Your task to perform on an android device: open app "Firefox Browser" (install if not already installed) Image 0: 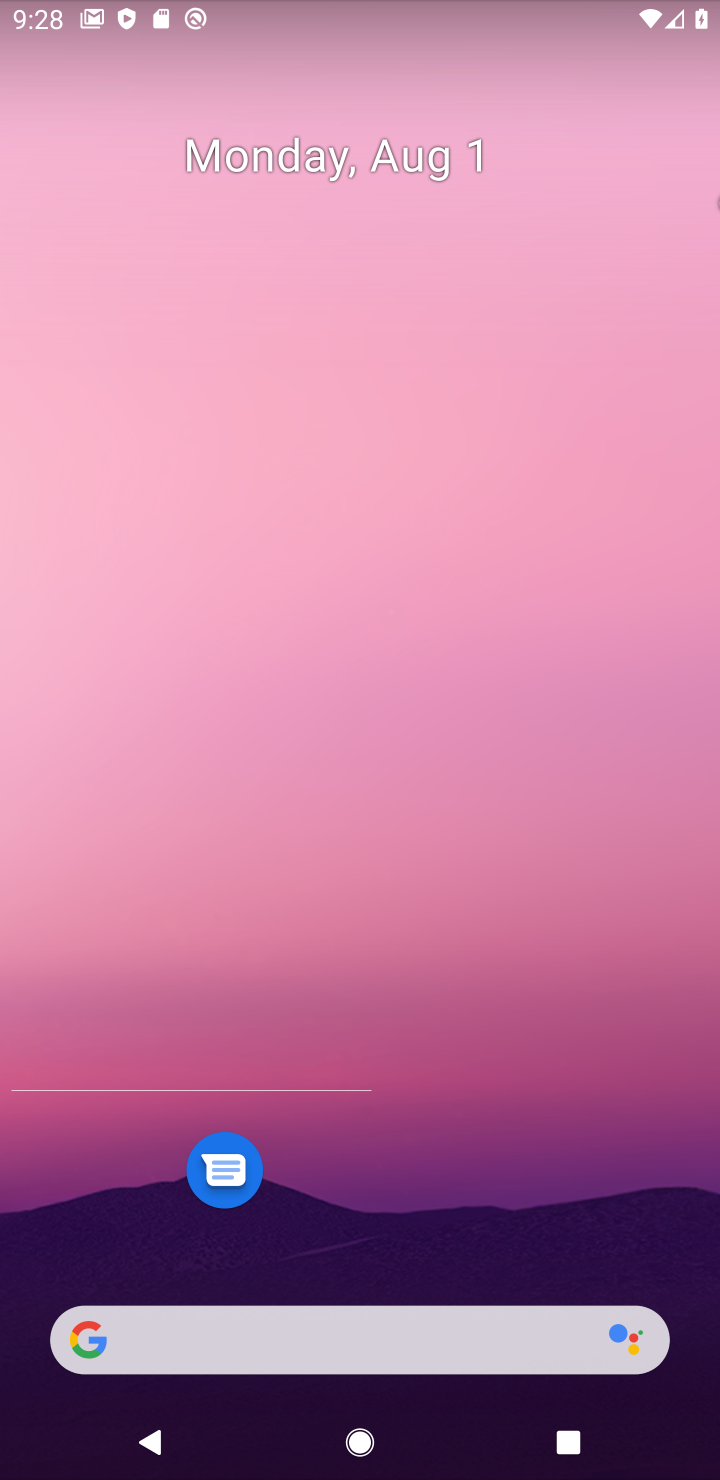
Step 0: press back button
Your task to perform on an android device: open app "Firefox Browser" (install if not already installed) Image 1: 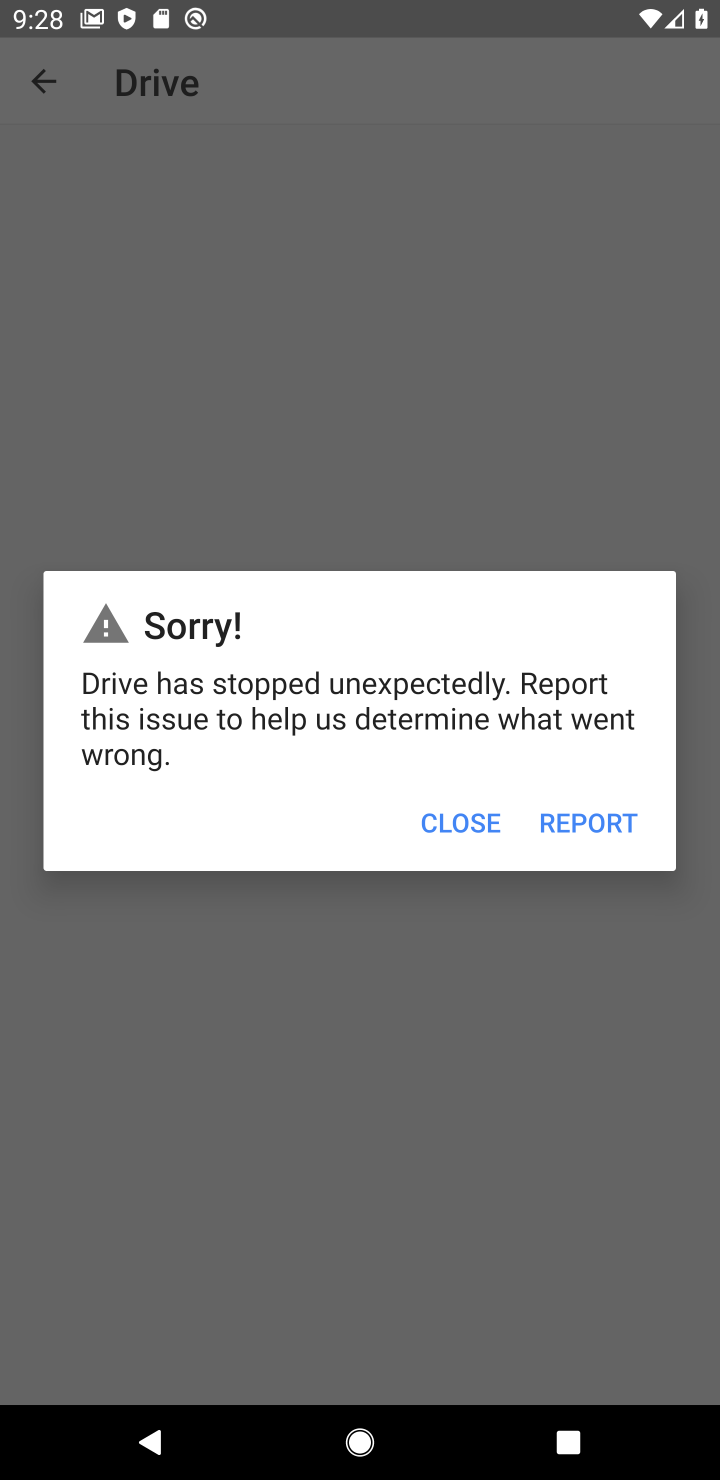
Step 1: drag from (482, 1089) to (317, 53)
Your task to perform on an android device: open app "Firefox Browser" (install if not already installed) Image 2: 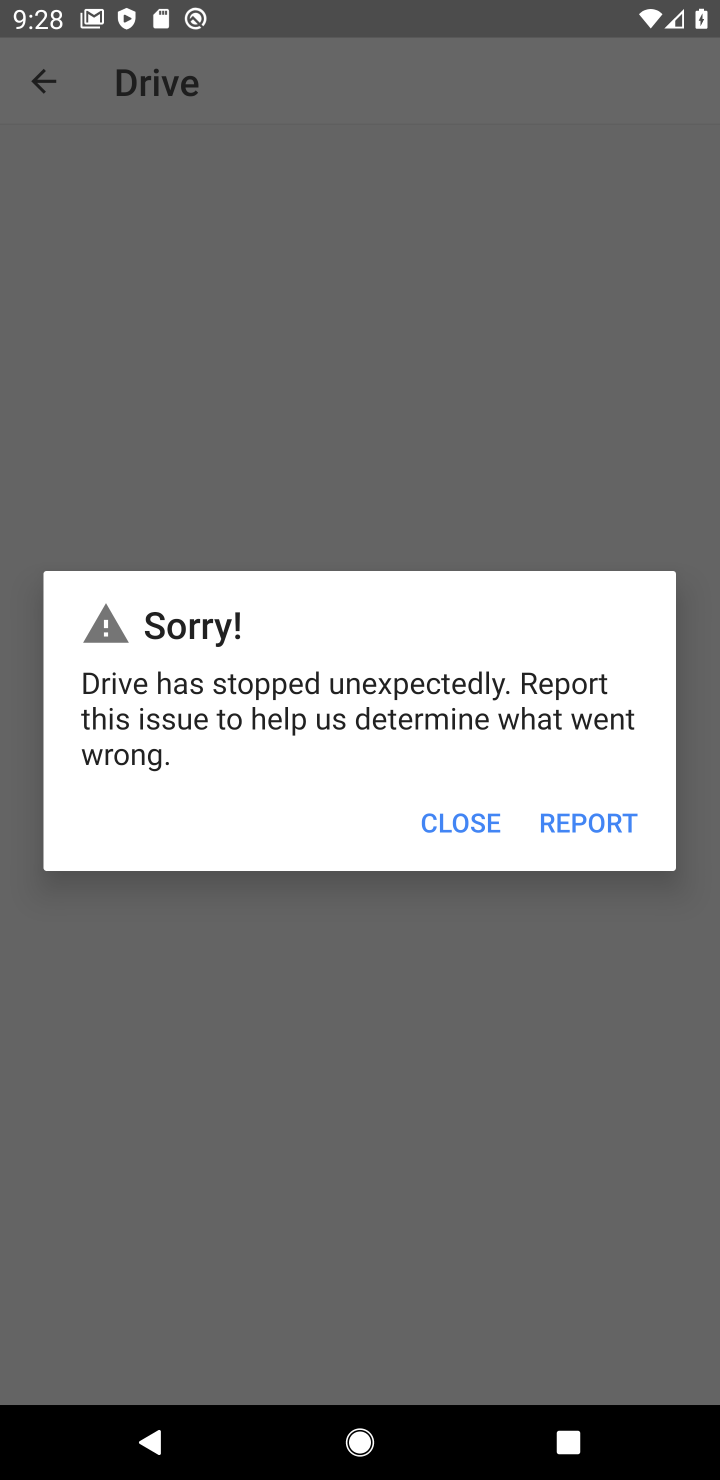
Step 2: drag from (473, 888) to (177, 317)
Your task to perform on an android device: open app "Firefox Browser" (install if not already installed) Image 3: 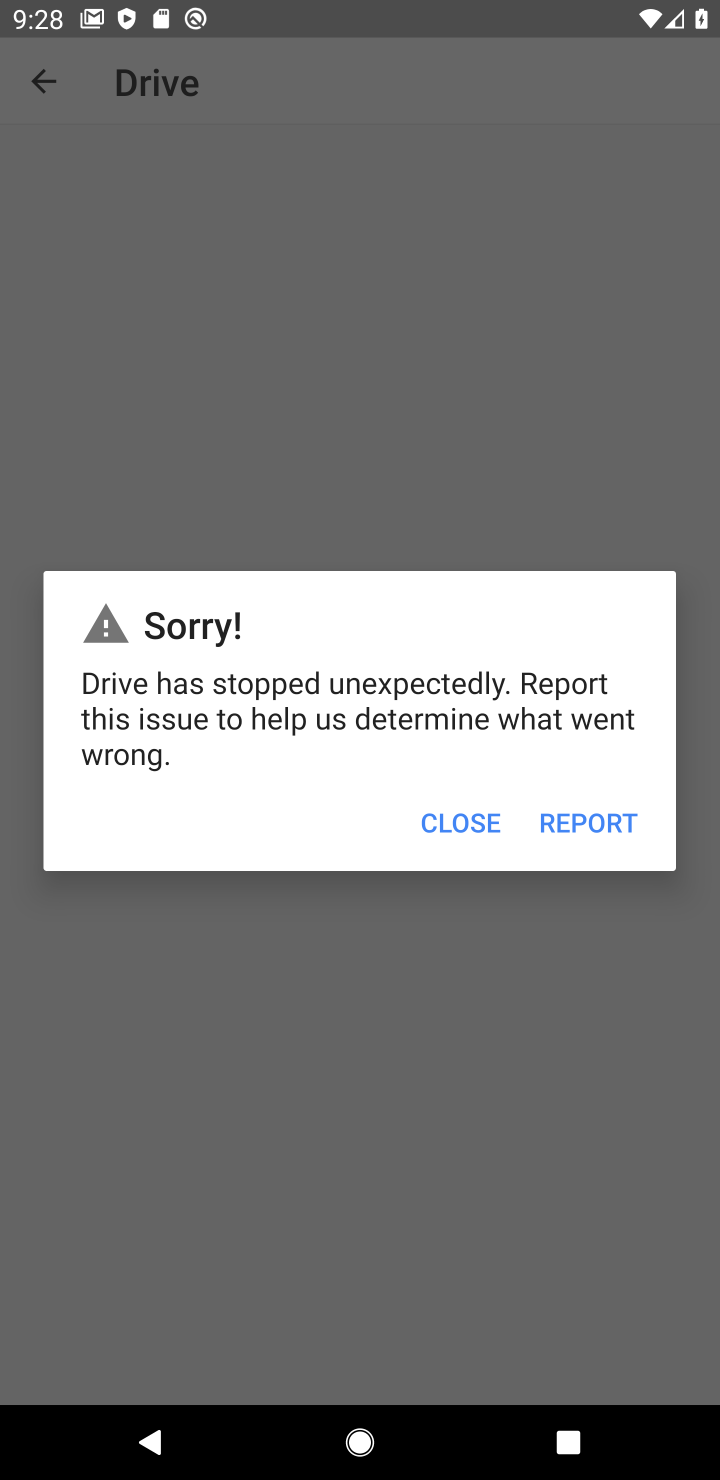
Step 3: drag from (404, 714) to (417, 117)
Your task to perform on an android device: open app "Firefox Browser" (install if not already installed) Image 4: 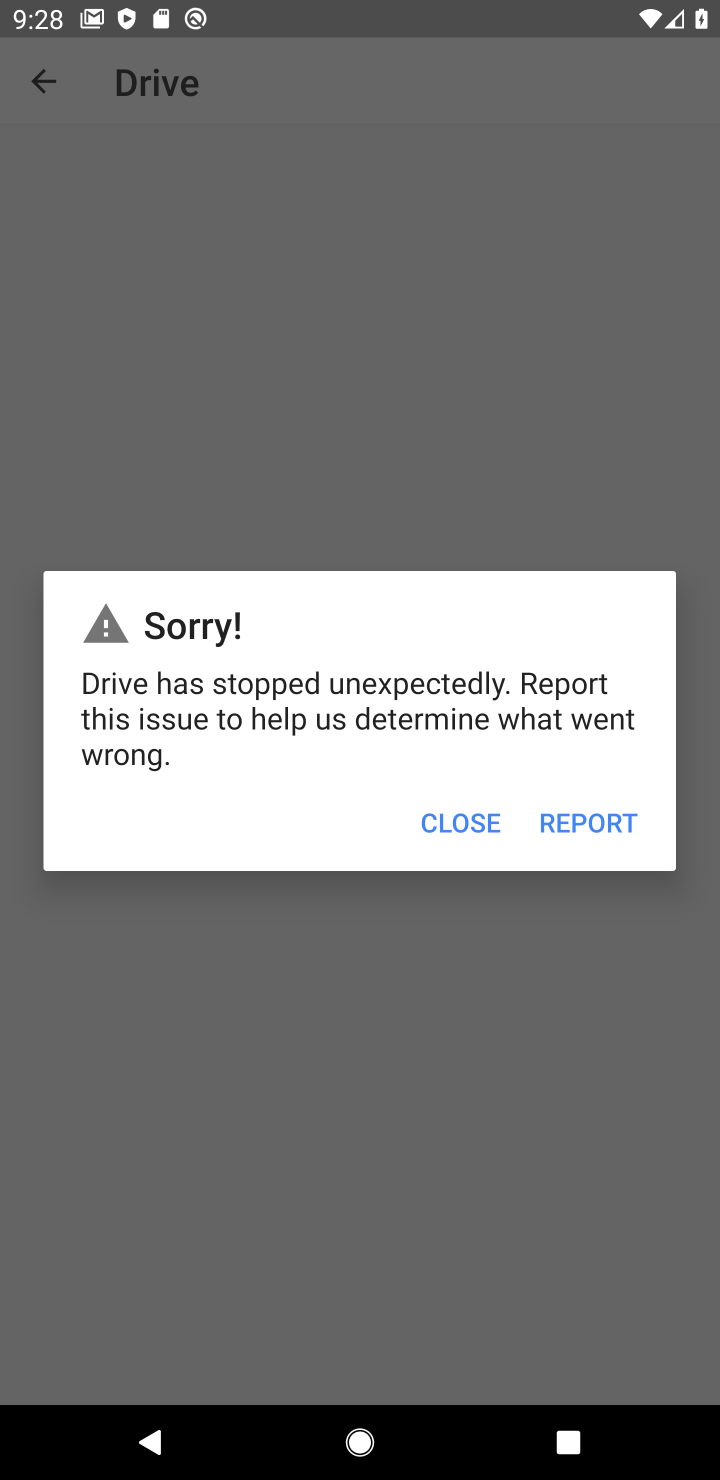
Step 4: click (245, 128)
Your task to perform on an android device: open app "Firefox Browser" (install if not already installed) Image 5: 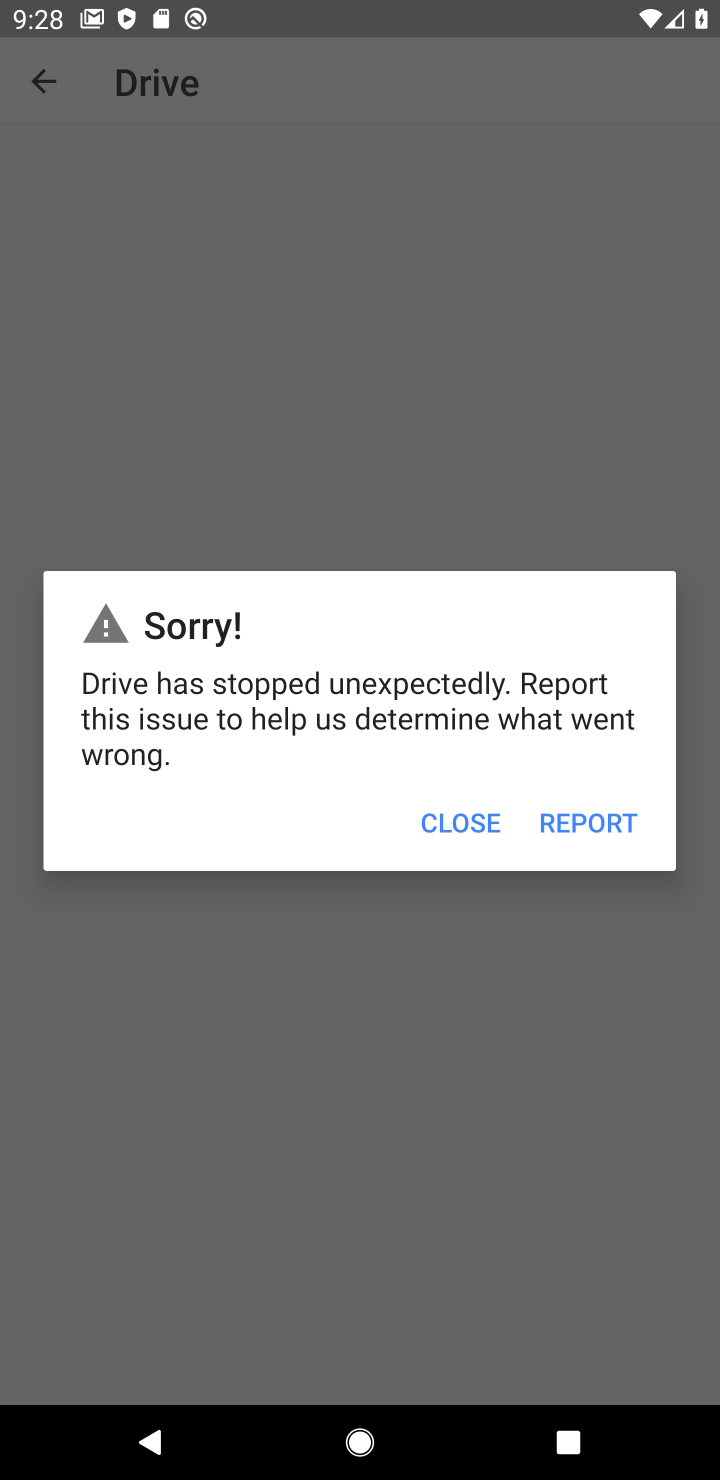
Step 5: click (45, 91)
Your task to perform on an android device: open app "Firefox Browser" (install if not already installed) Image 6: 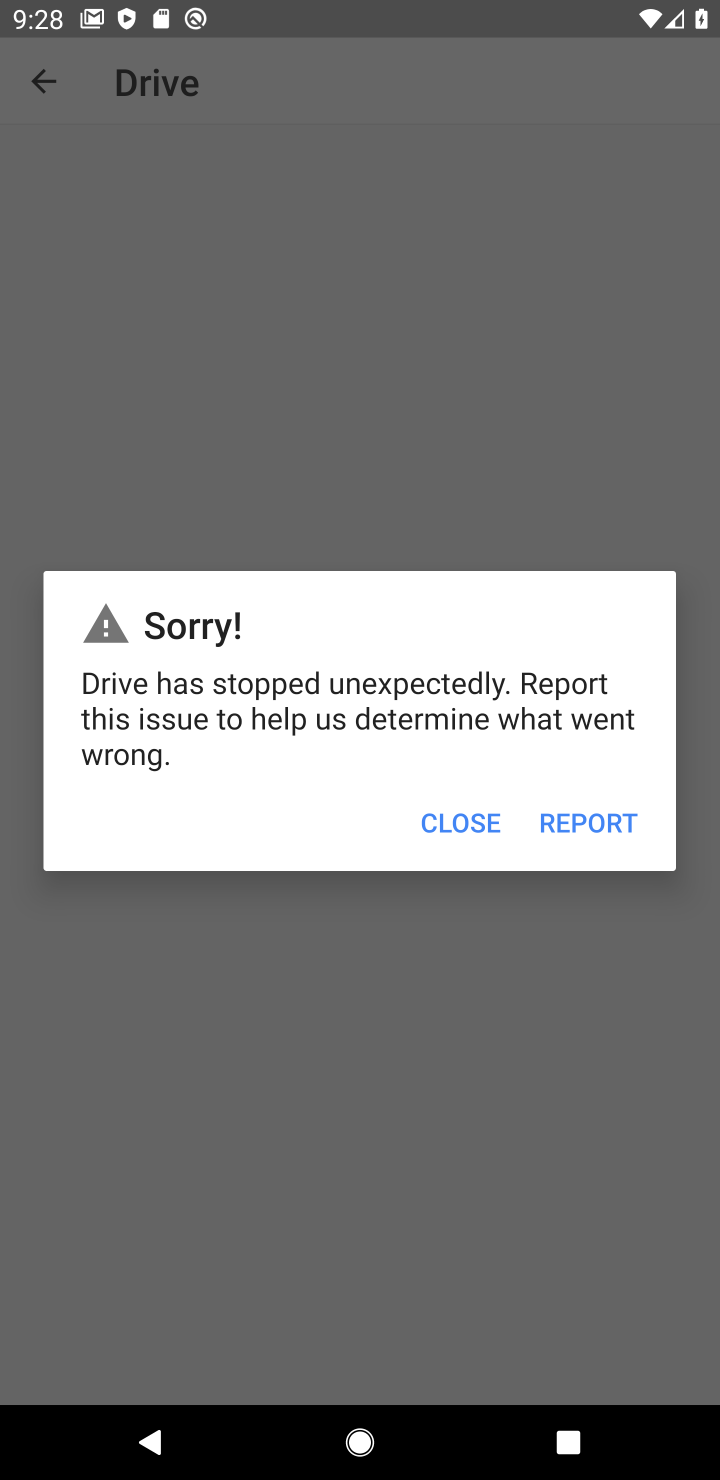
Step 6: click (42, 89)
Your task to perform on an android device: open app "Firefox Browser" (install if not already installed) Image 7: 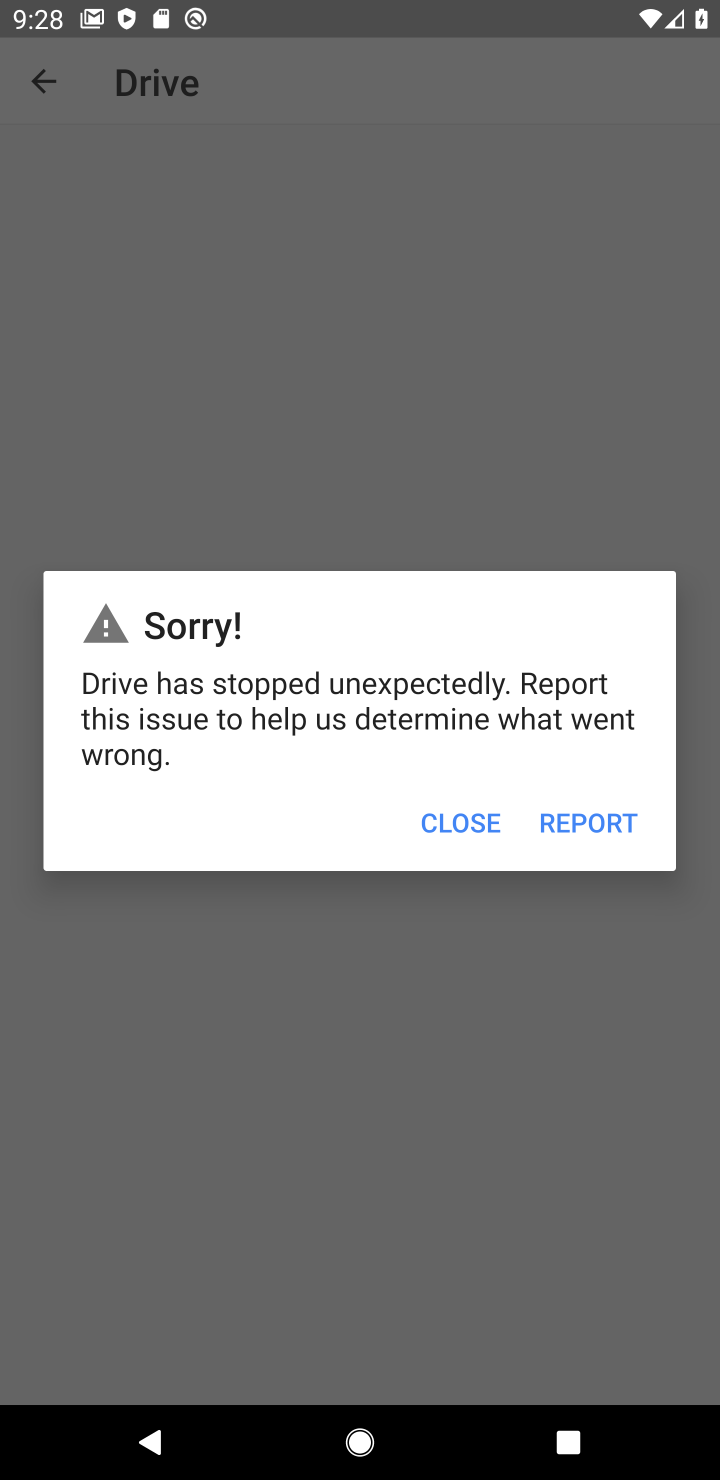
Step 7: click (43, 99)
Your task to perform on an android device: open app "Firefox Browser" (install if not already installed) Image 8: 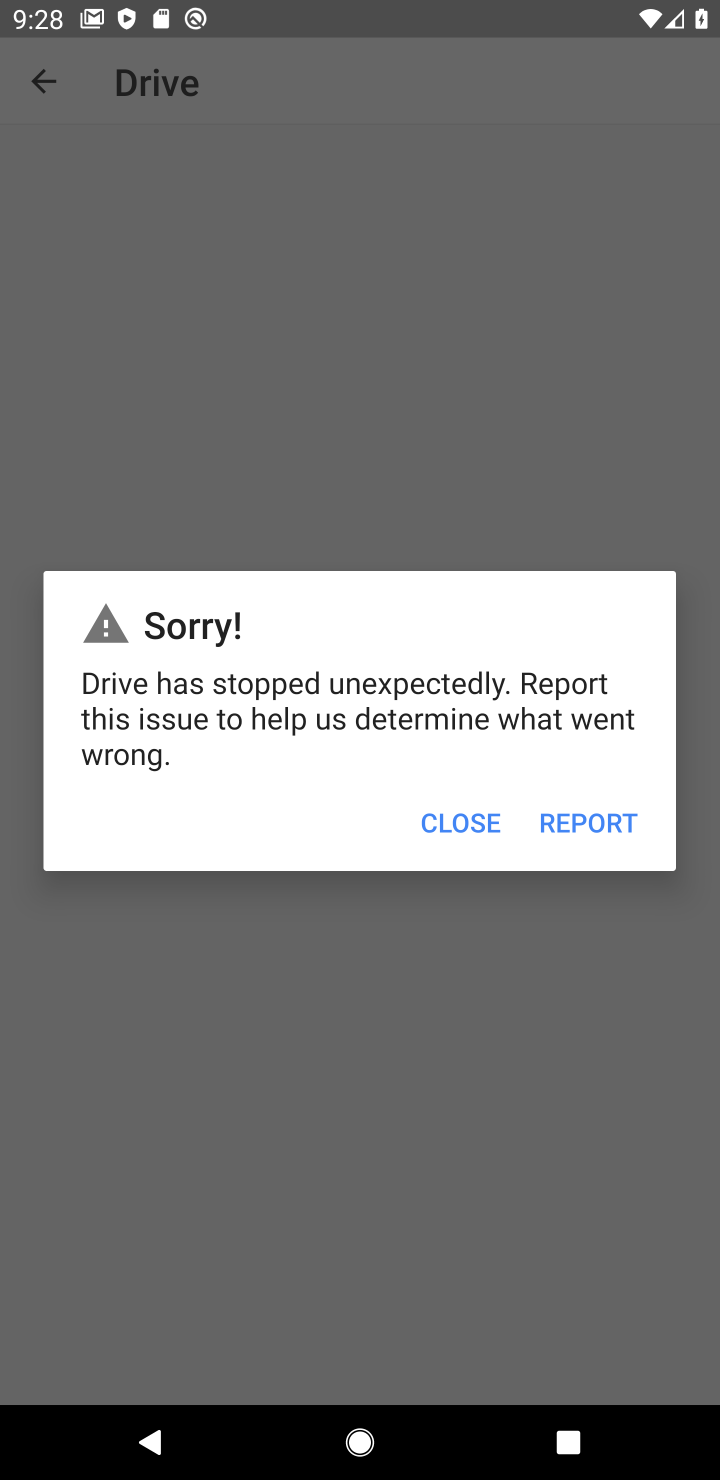
Step 8: click (43, 93)
Your task to perform on an android device: open app "Firefox Browser" (install if not already installed) Image 9: 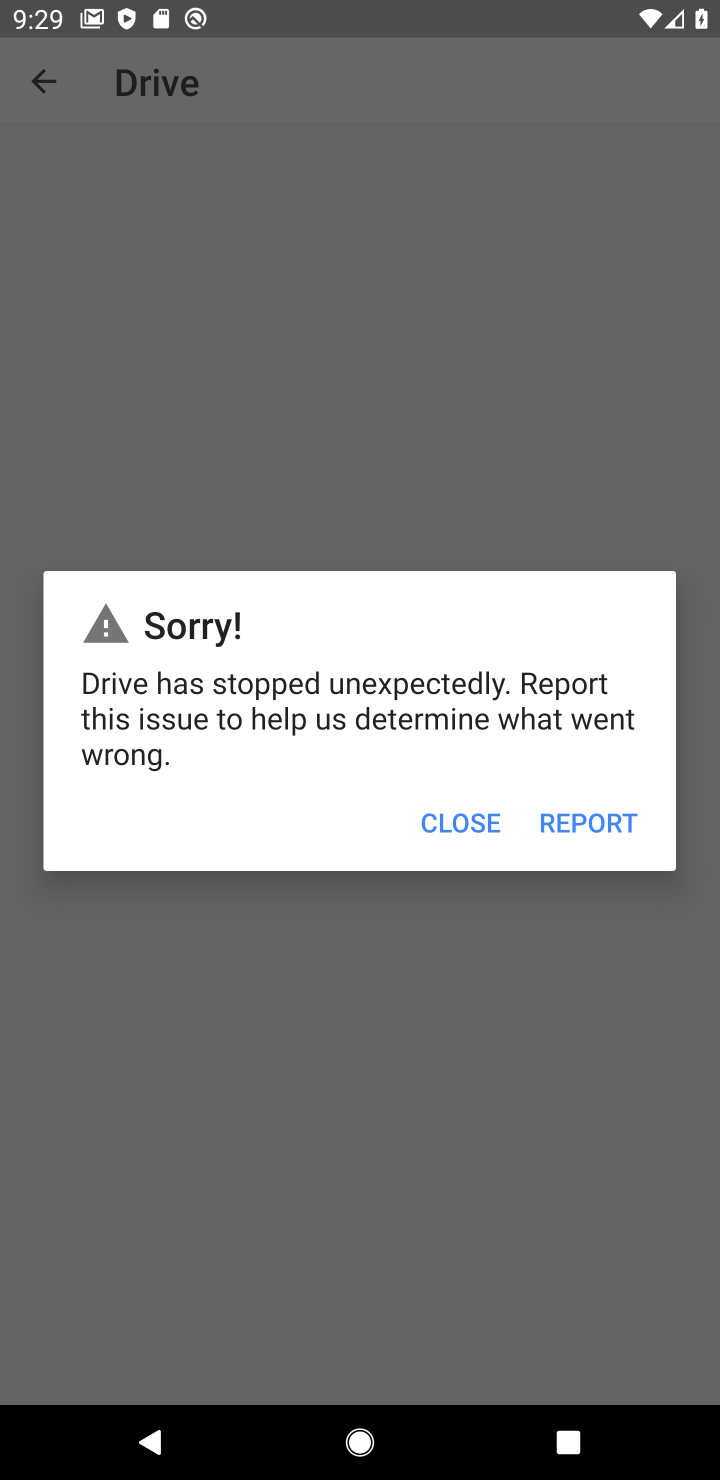
Step 9: click (50, 104)
Your task to perform on an android device: open app "Firefox Browser" (install if not already installed) Image 10: 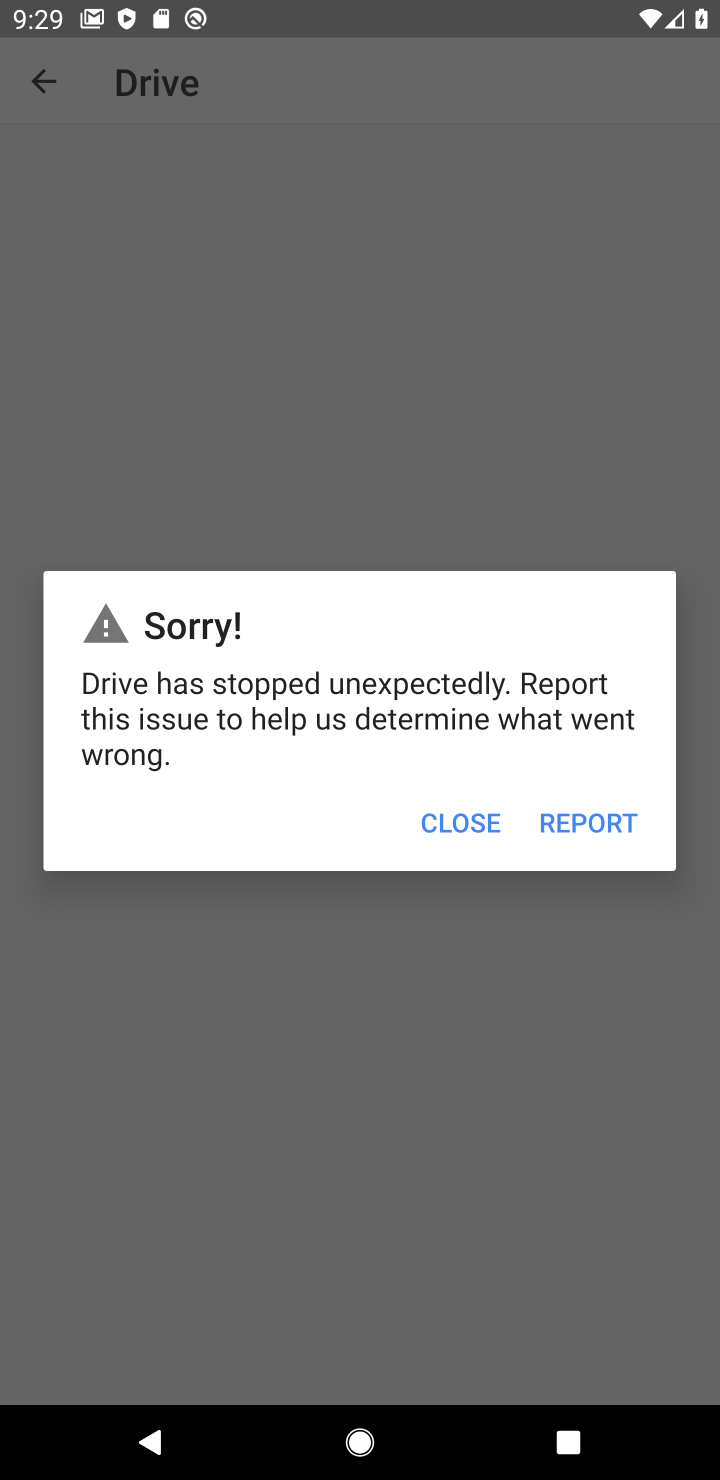
Step 10: click (309, 464)
Your task to perform on an android device: open app "Firefox Browser" (install if not already installed) Image 11: 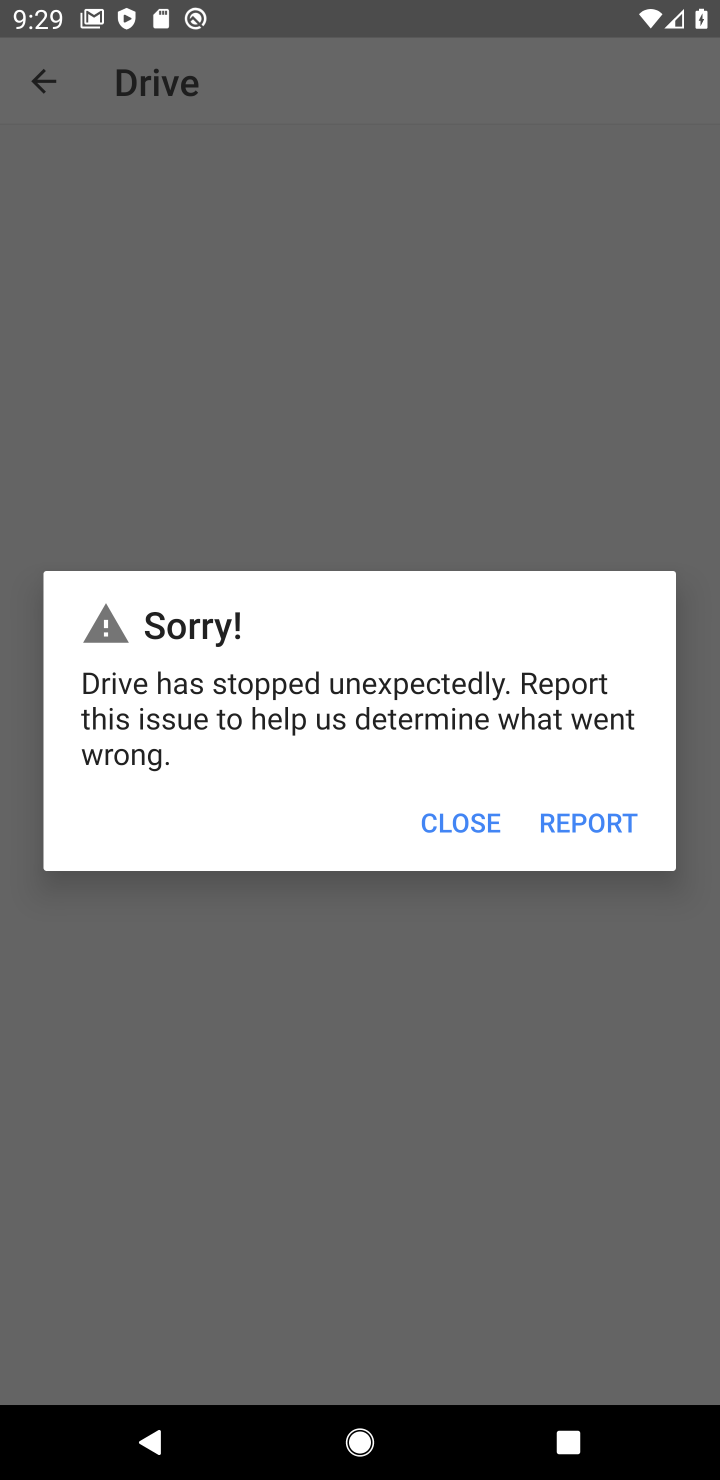
Step 11: click (45, 106)
Your task to perform on an android device: open app "Firefox Browser" (install if not already installed) Image 12: 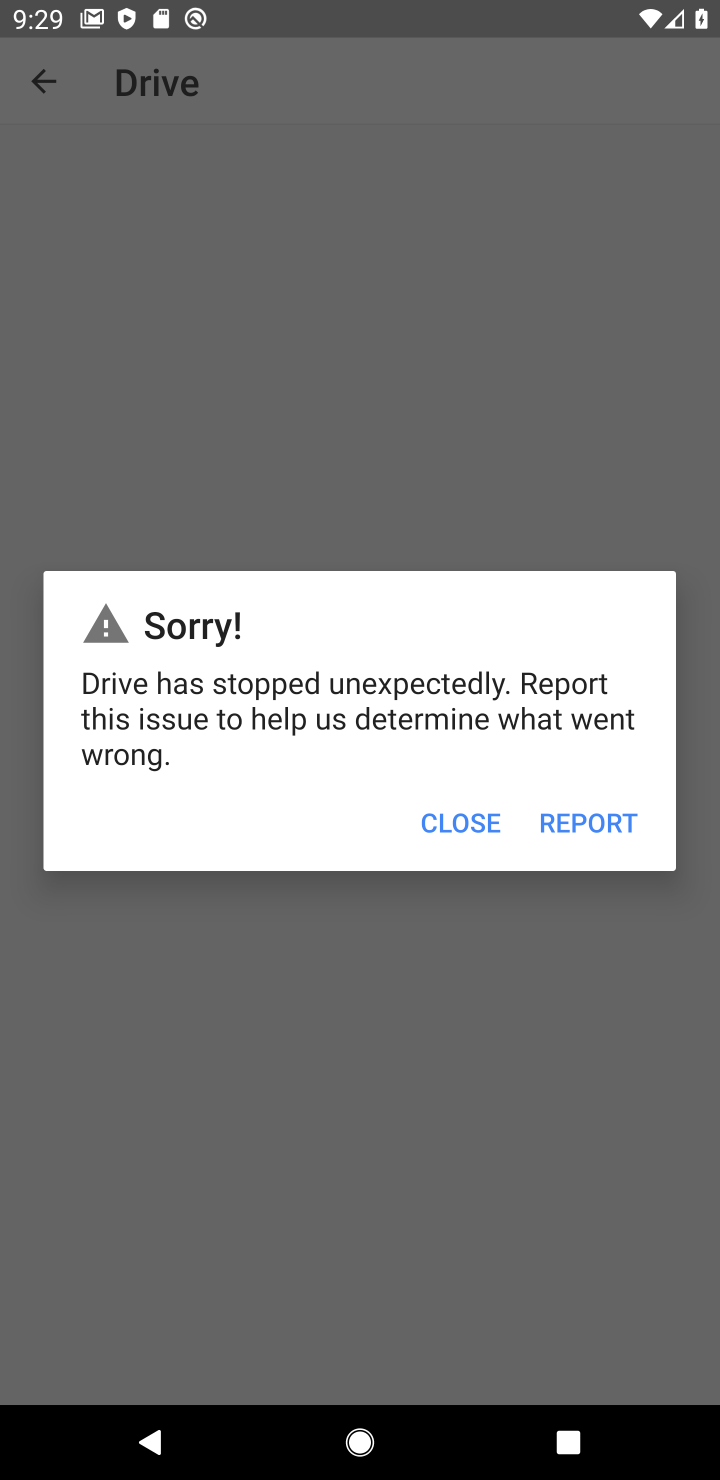
Step 12: click (273, 249)
Your task to perform on an android device: open app "Firefox Browser" (install if not already installed) Image 13: 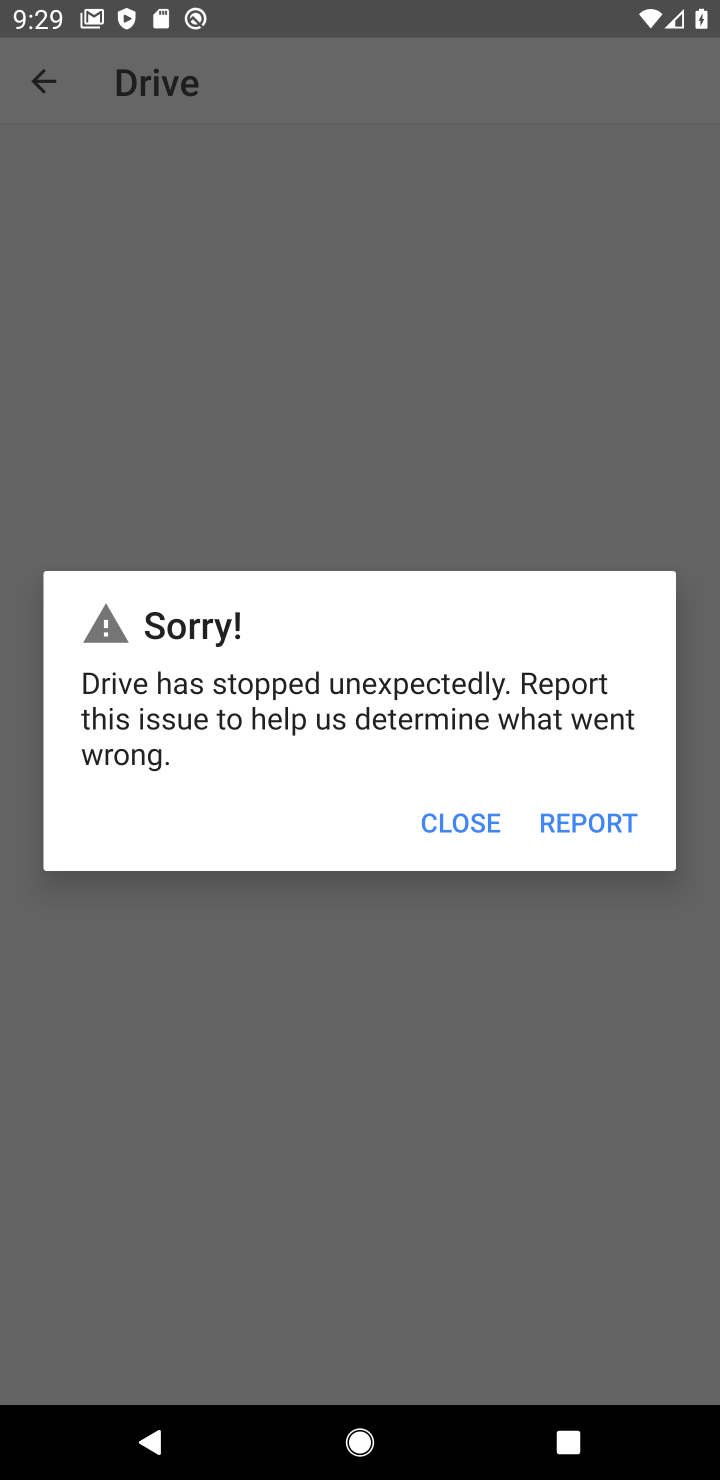
Step 13: press back button
Your task to perform on an android device: open app "Firefox Browser" (install if not already installed) Image 14: 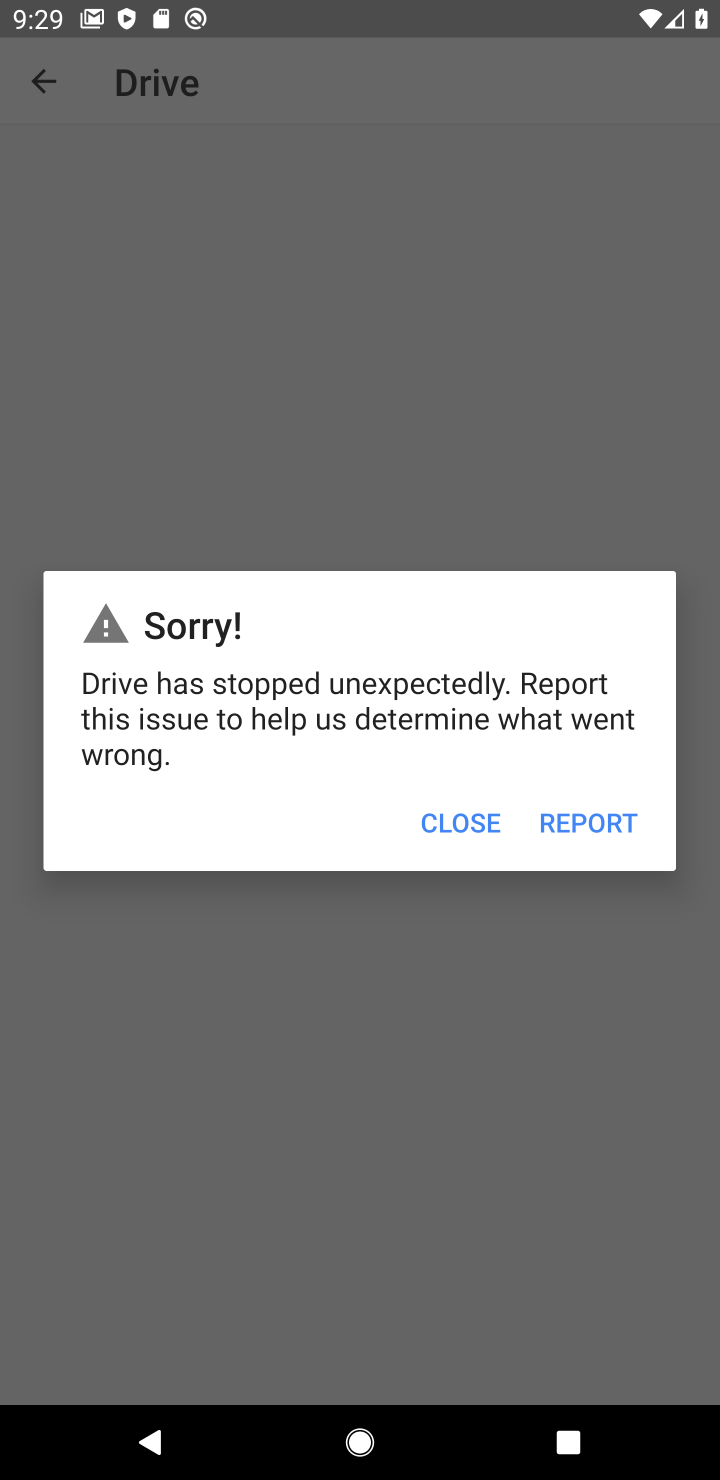
Step 14: press back button
Your task to perform on an android device: open app "Firefox Browser" (install if not already installed) Image 15: 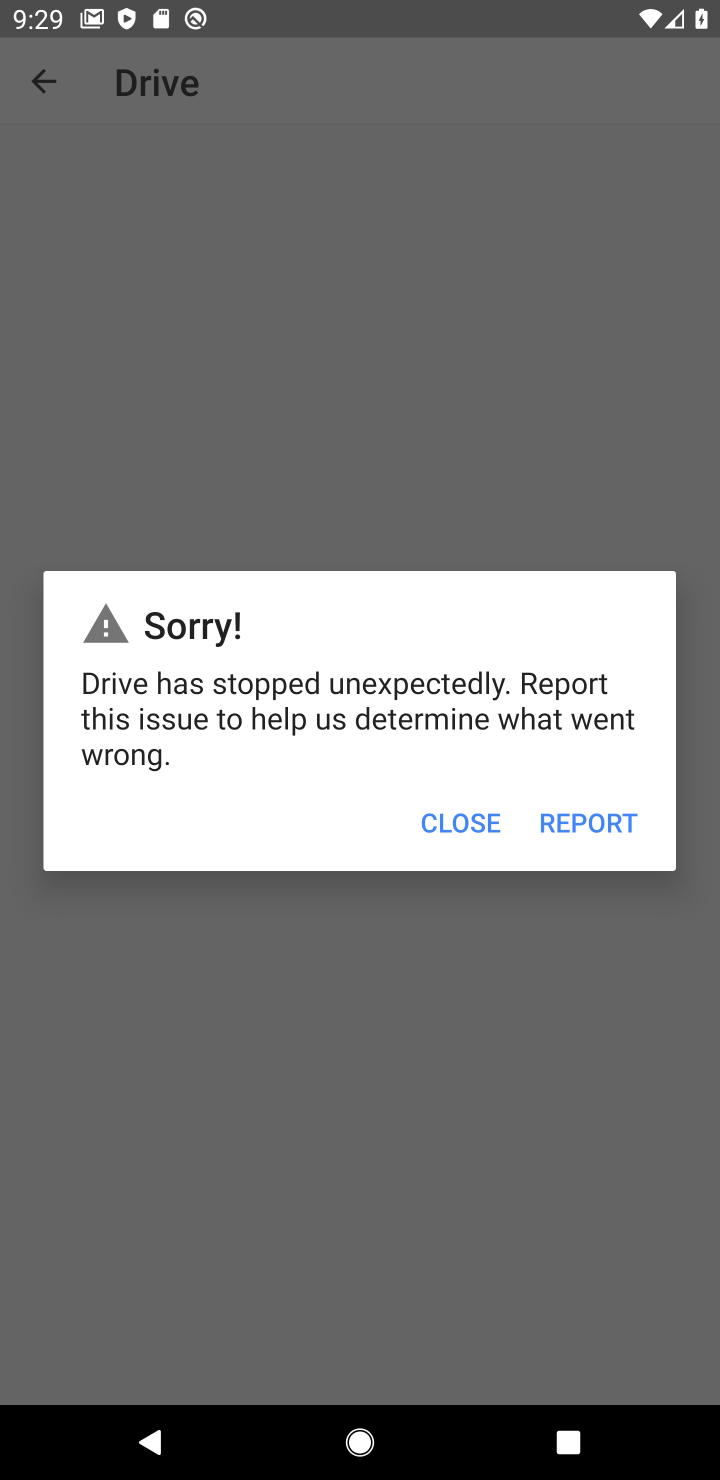
Step 15: press home button
Your task to perform on an android device: open app "Firefox Browser" (install if not already installed) Image 16: 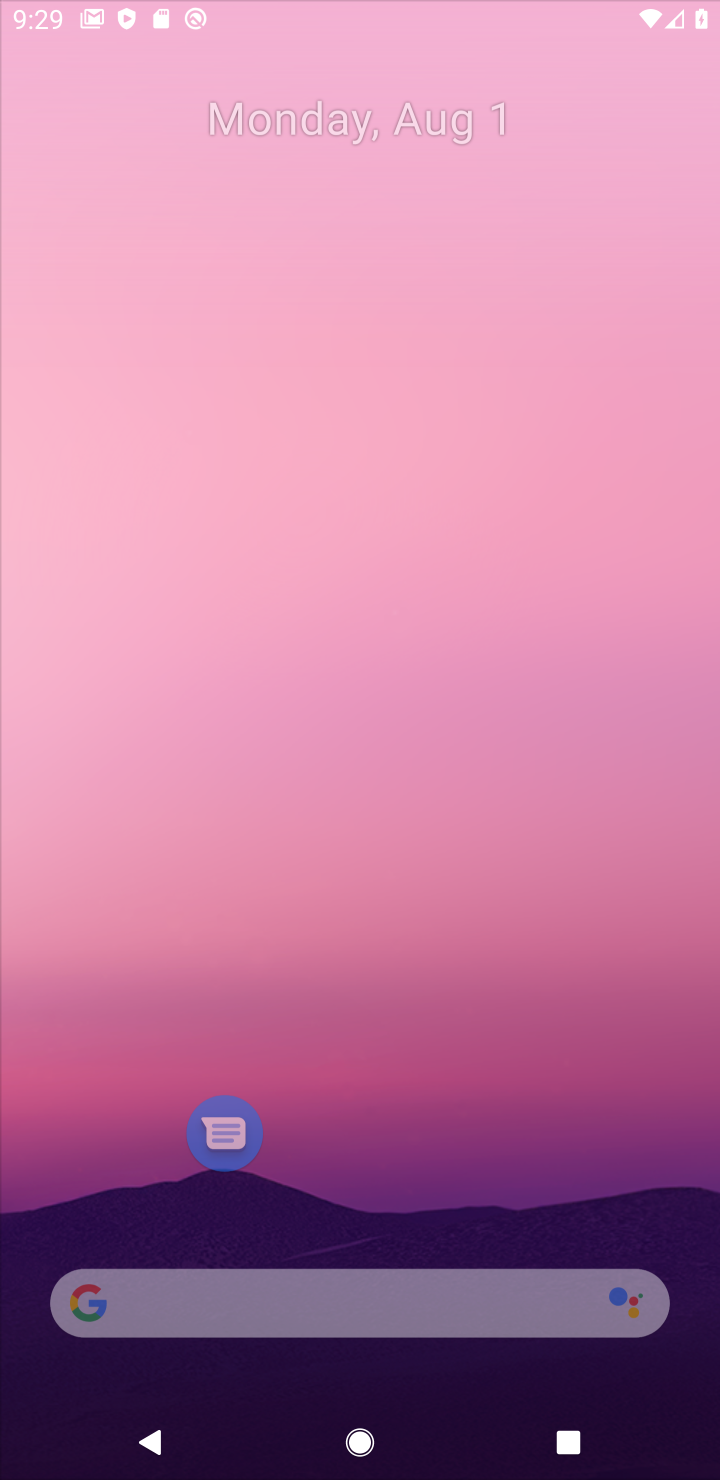
Step 16: drag from (445, 824) to (292, 256)
Your task to perform on an android device: open app "Firefox Browser" (install if not already installed) Image 17: 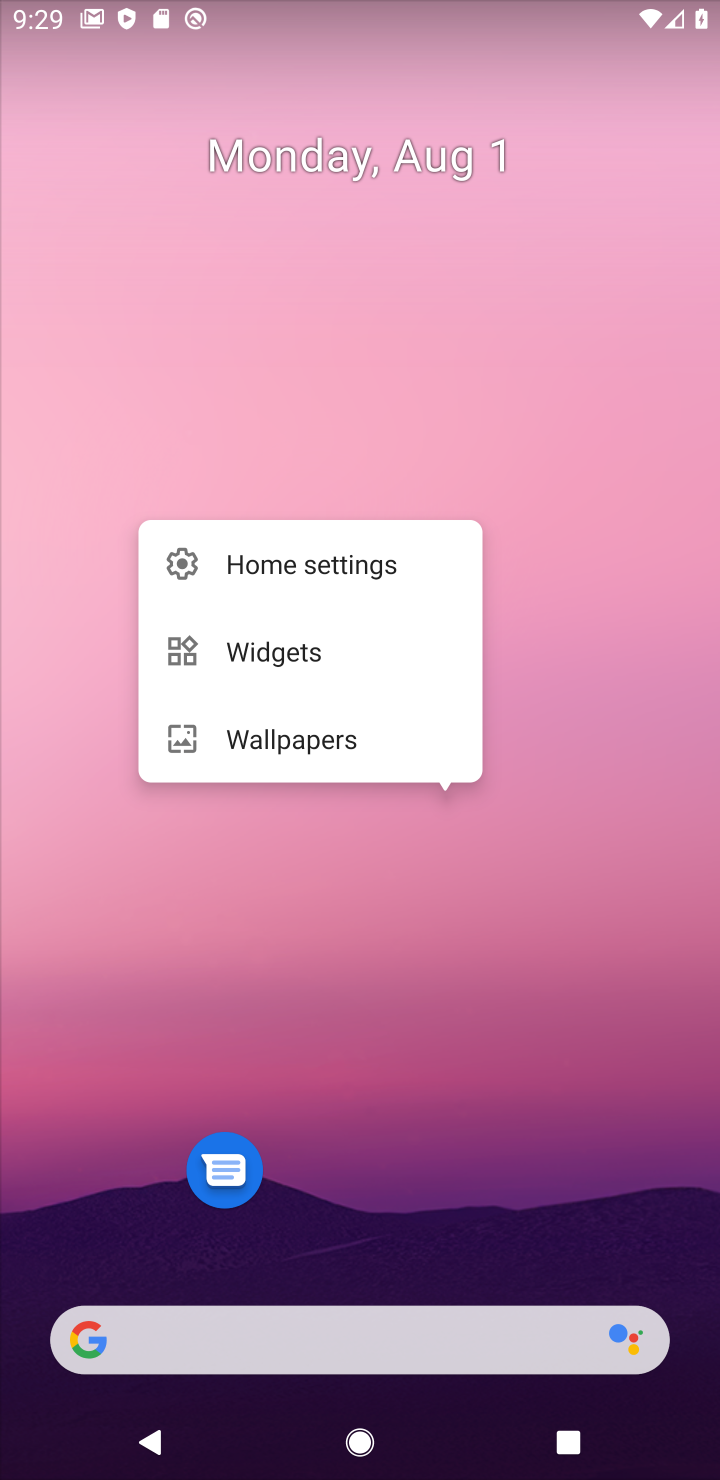
Step 17: drag from (315, 1042) to (362, 36)
Your task to perform on an android device: open app "Firefox Browser" (install if not already installed) Image 18: 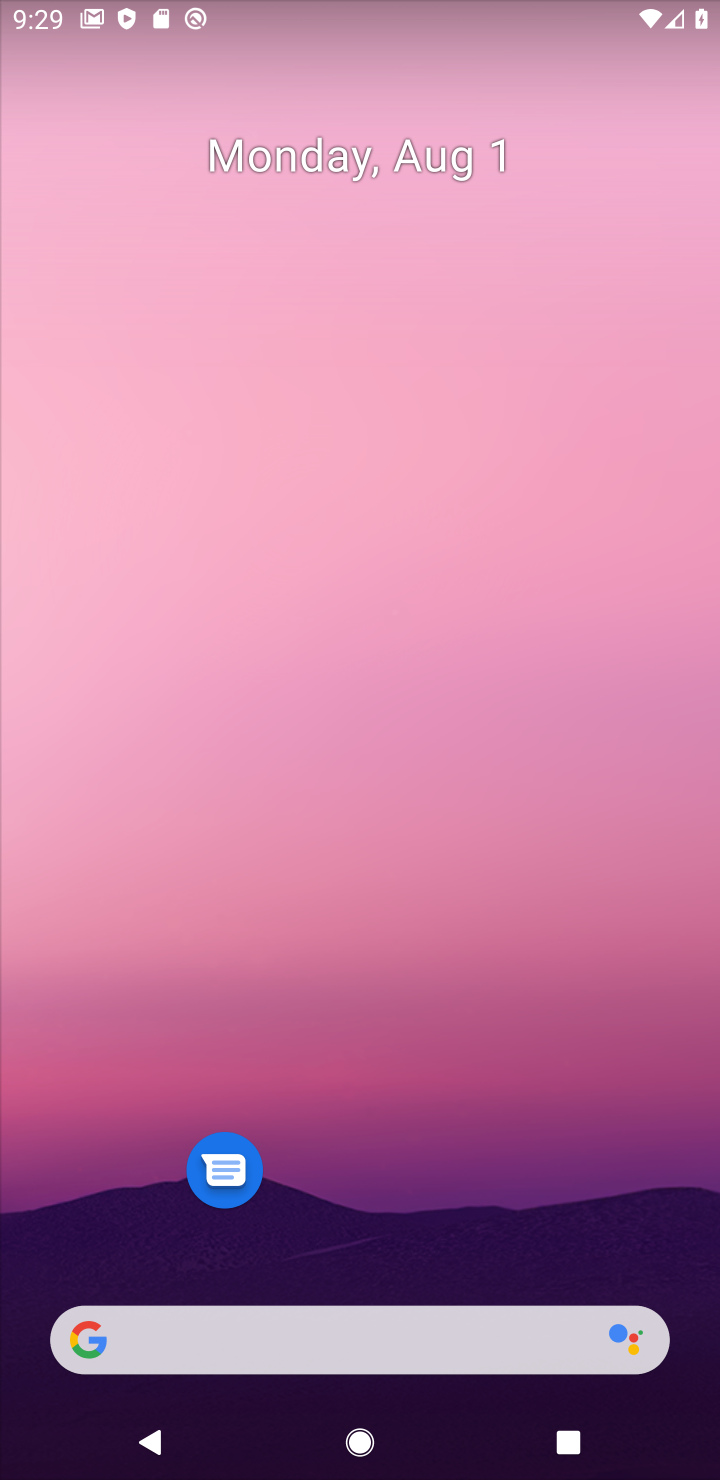
Step 18: drag from (527, 391) to (380, 201)
Your task to perform on an android device: open app "Firefox Browser" (install if not already installed) Image 19: 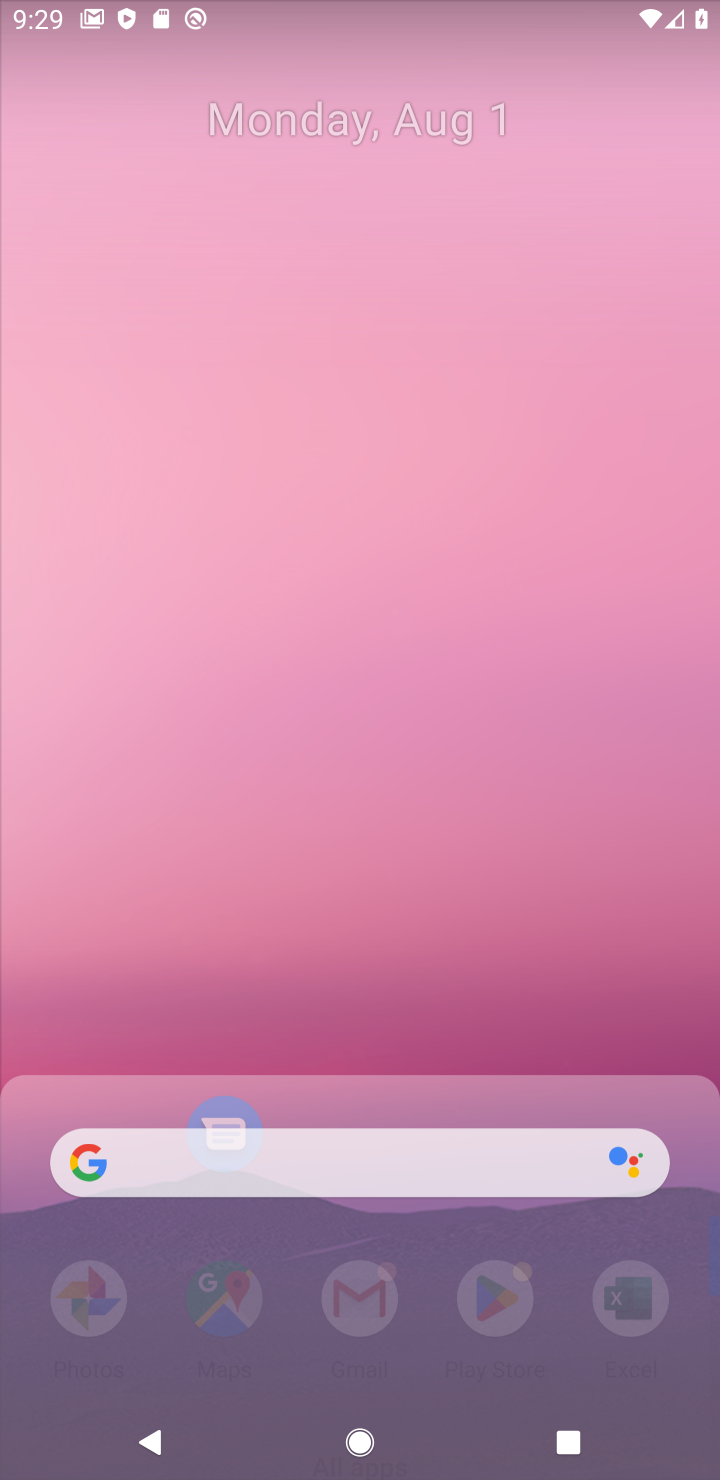
Step 19: drag from (392, 71) to (293, 588)
Your task to perform on an android device: open app "Firefox Browser" (install if not already installed) Image 20: 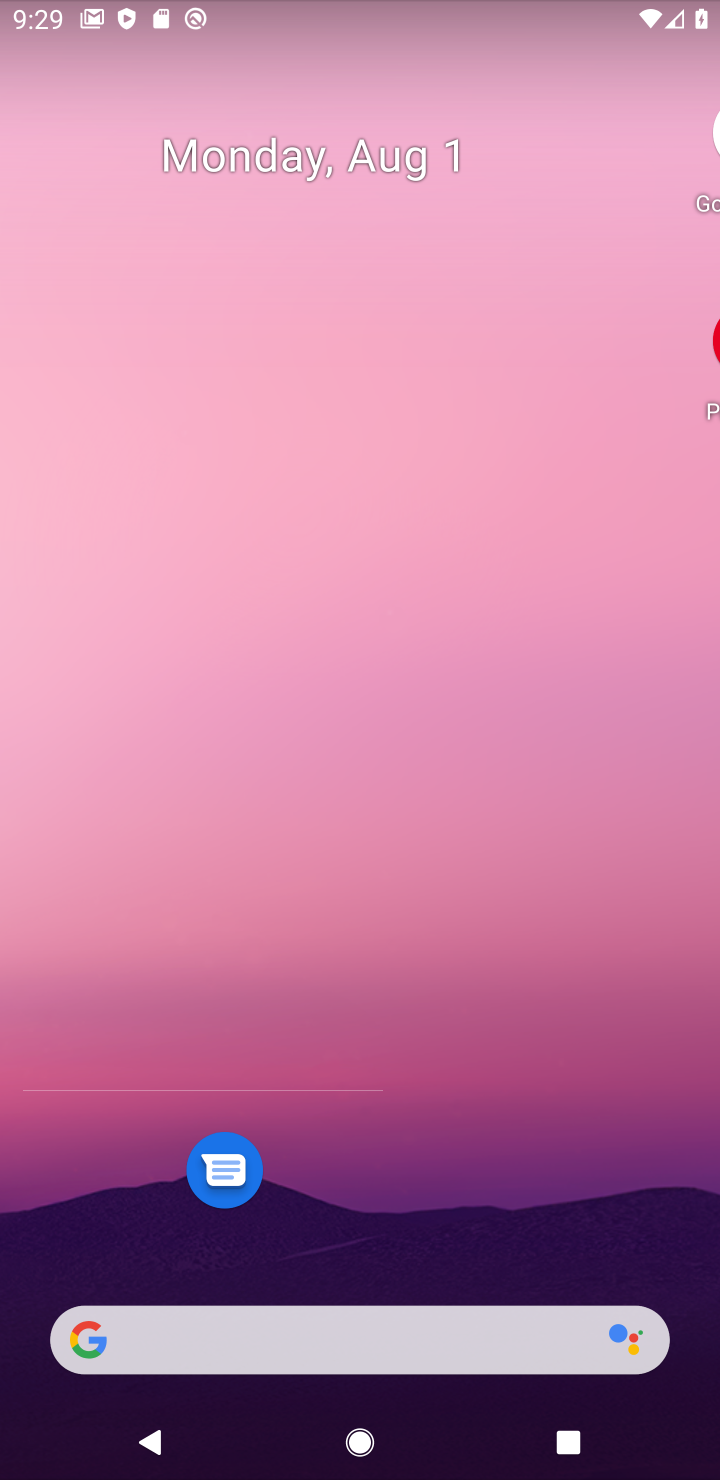
Step 20: drag from (441, 1112) to (432, 591)
Your task to perform on an android device: open app "Firefox Browser" (install if not already installed) Image 21: 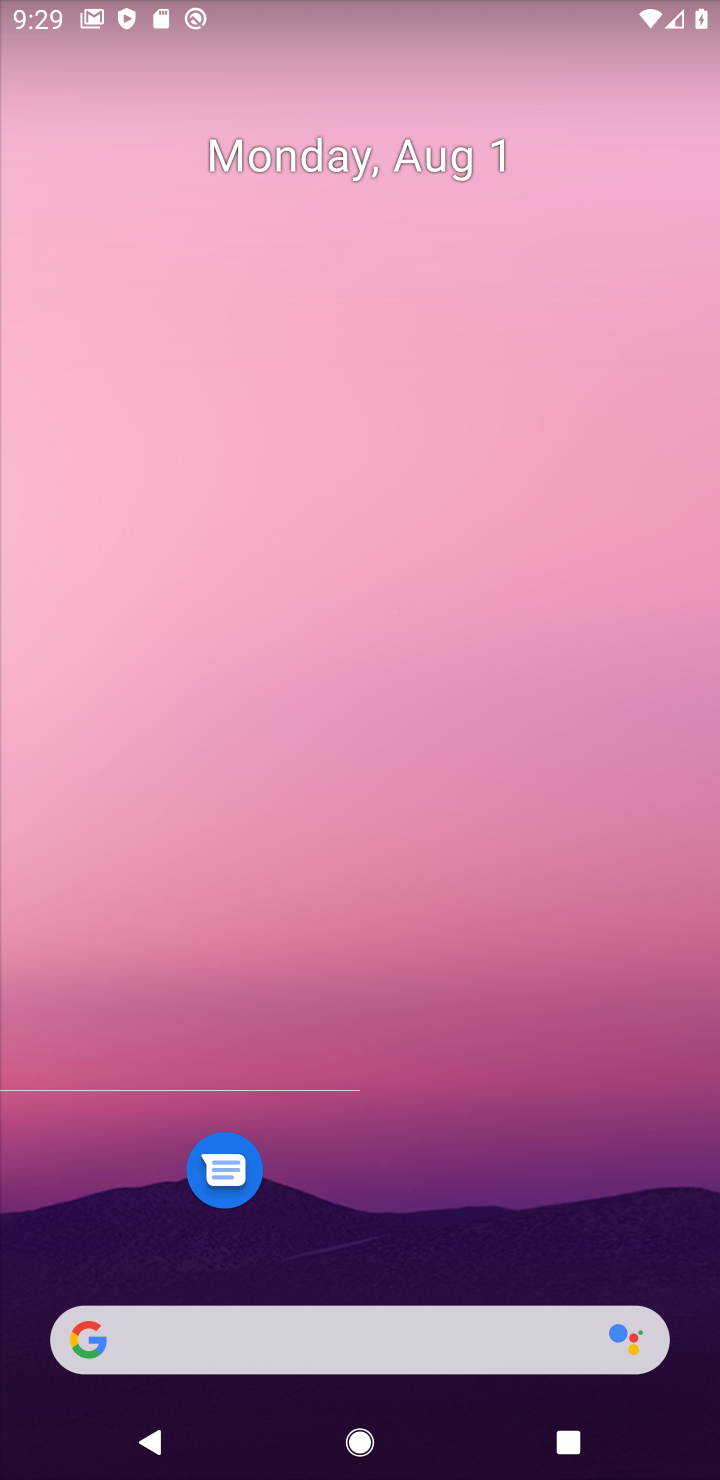
Step 21: click (420, 479)
Your task to perform on an android device: open app "Firefox Browser" (install if not already installed) Image 22: 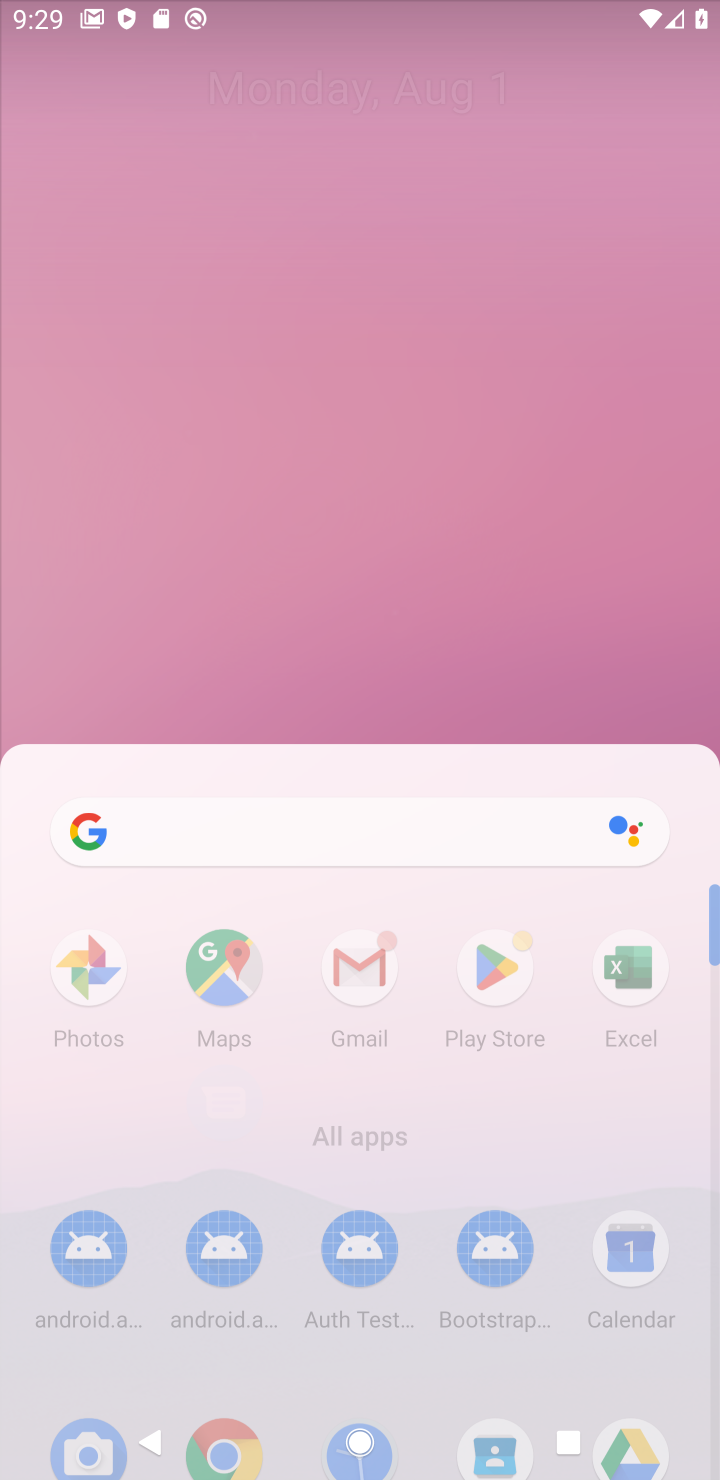
Step 22: click (300, 207)
Your task to perform on an android device: open app "Firefox Browser" (install if not already installed) Image 23: 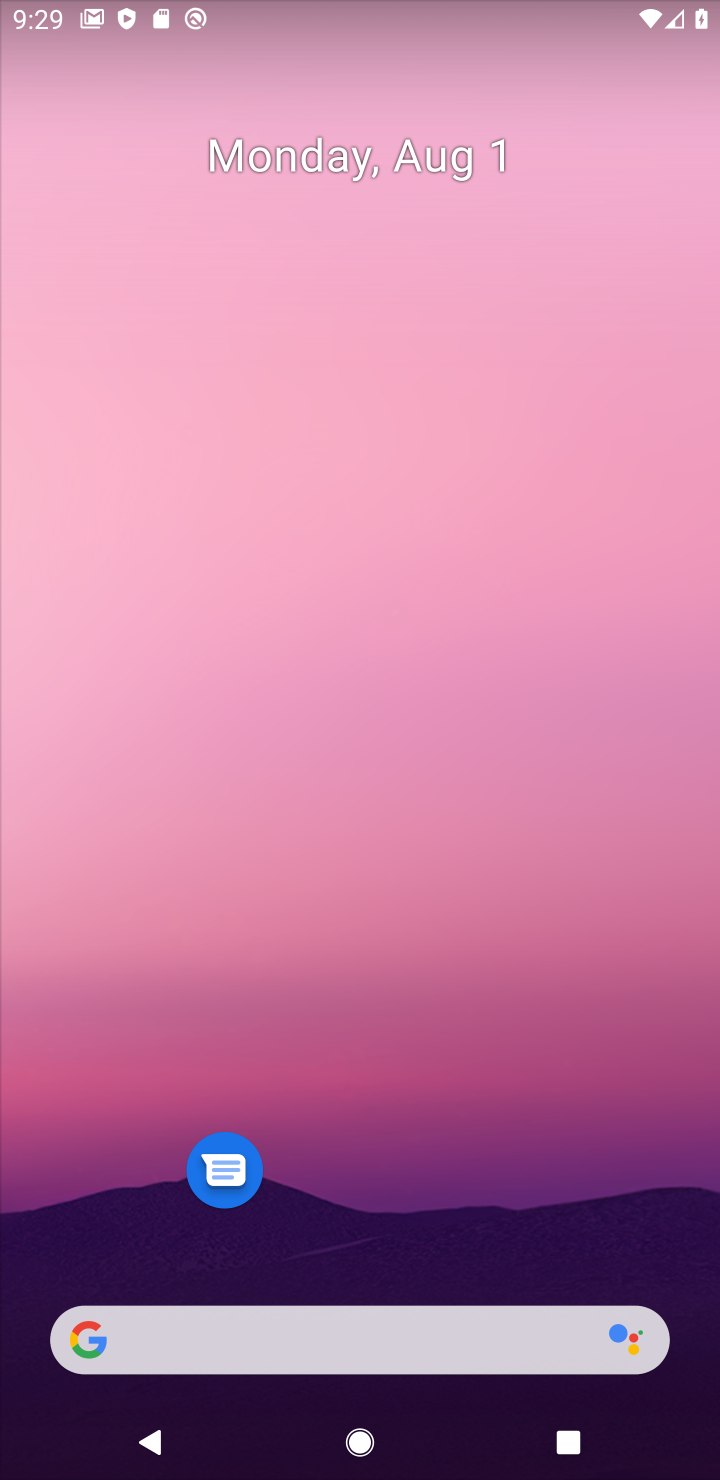
Step 23: drag from (214, 502) to (302, 278)
Your task to perform on an android device: open app "Firefox Browser" (install if not already installed) Image 24: 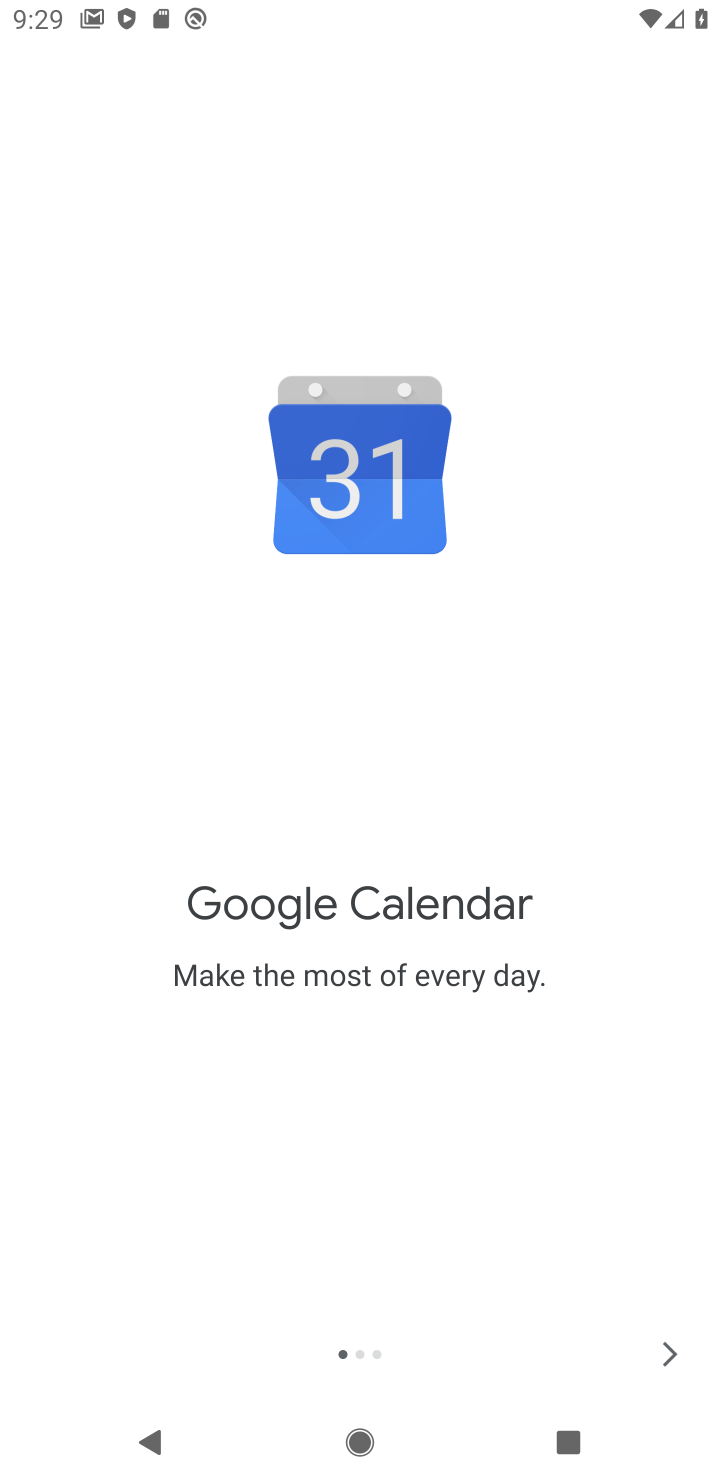
Step 24: drag from (377, 1080) to (345, 515)
Your task to perform on an android device: open app "Firefox Browser" (install if not already installed) Image 25: 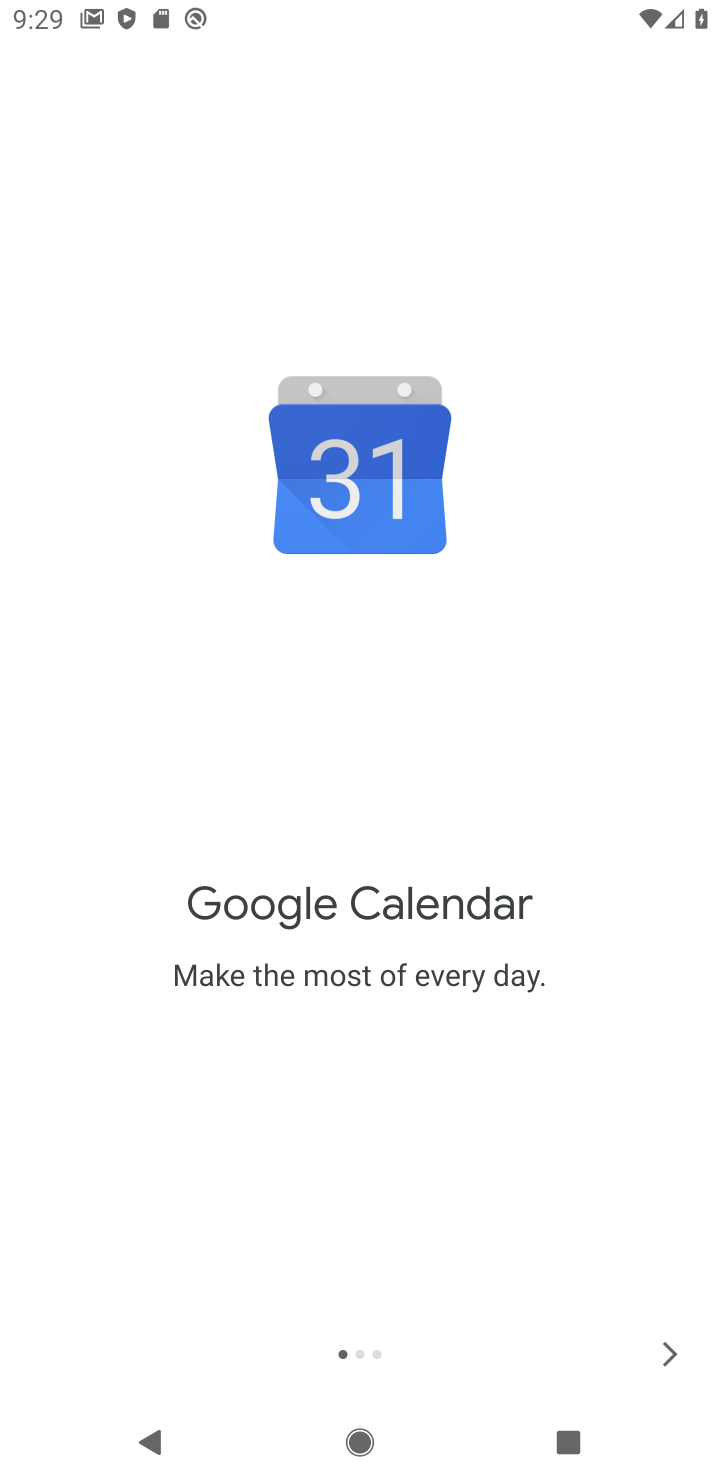
Step 25: press back button
Your task to perform on an android device: open app "Firefox Browser" (install if not already installed) Image 26: 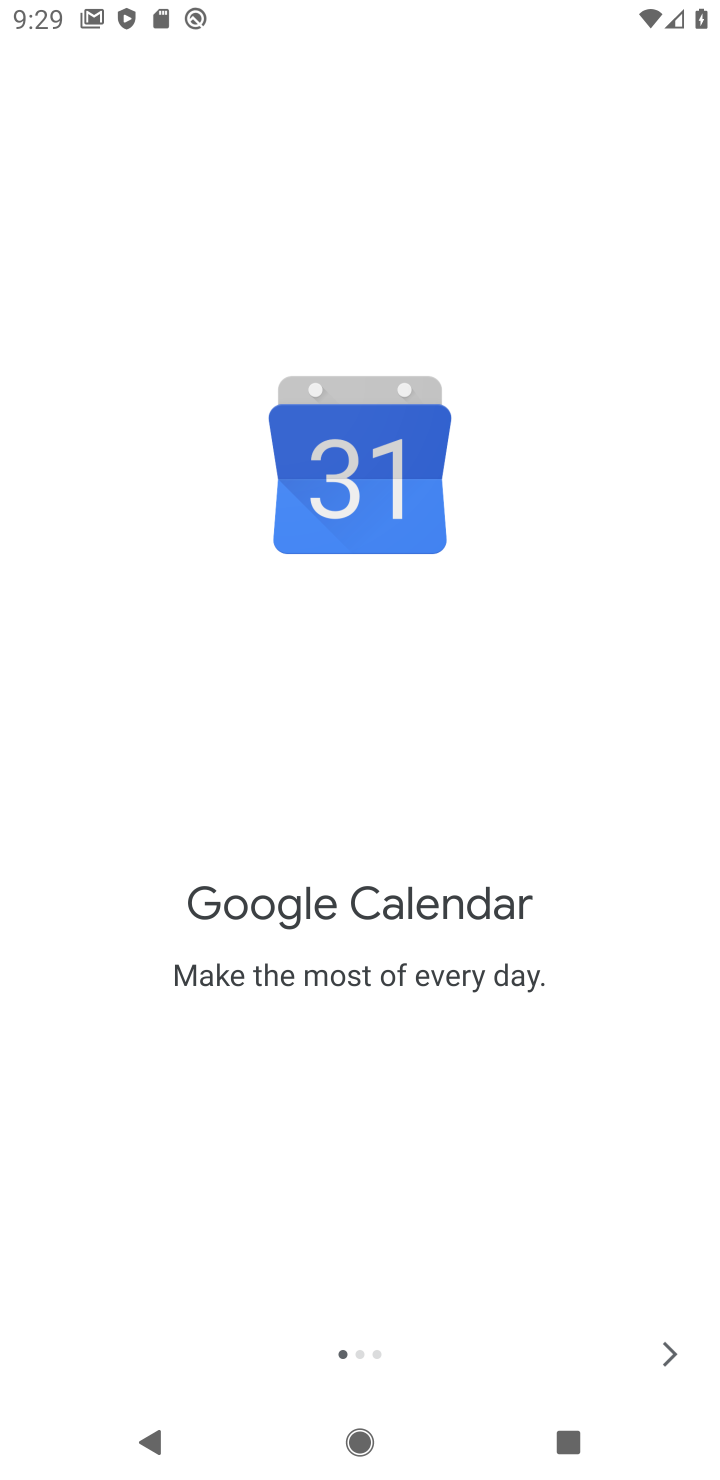
Step 26: press back button
Your task to perform on an android device: open app "Firefox Browser" (install if not already installed) Image 27: 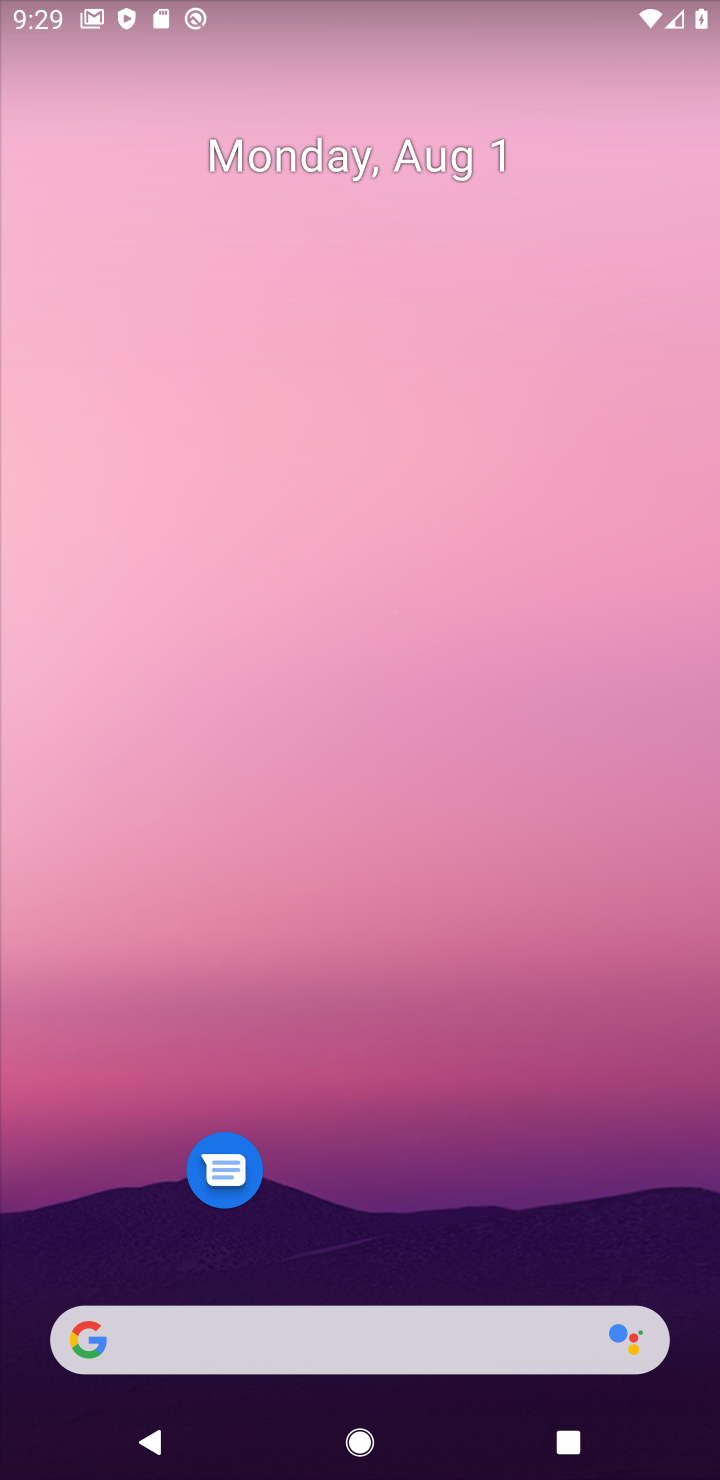
Step 27: press back button
Your task to perform on an android device: open app "Firefox Browser" (install if not already installed) Image 28: 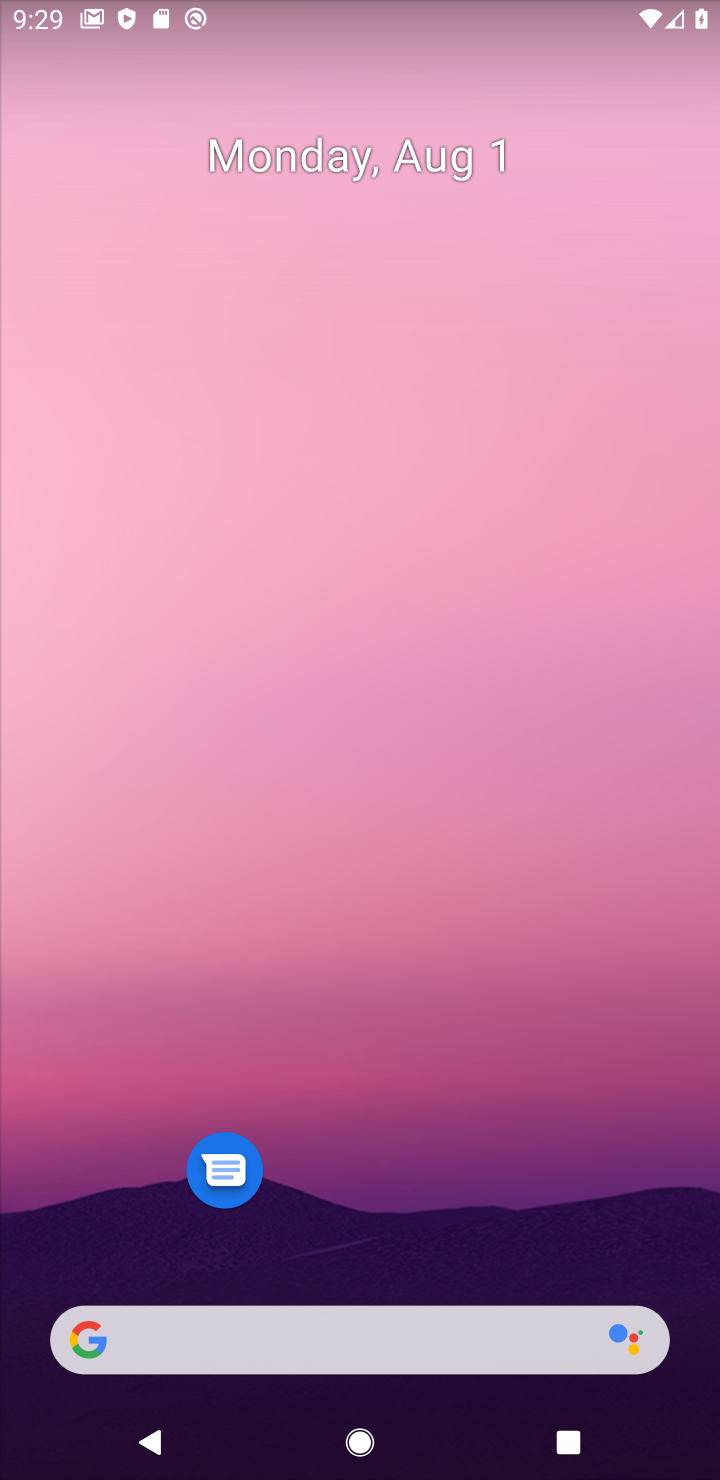
Step 28: press home button
Your task to perform on an android device: open app "Firefox Browser" (install if not already installed) Image 29: 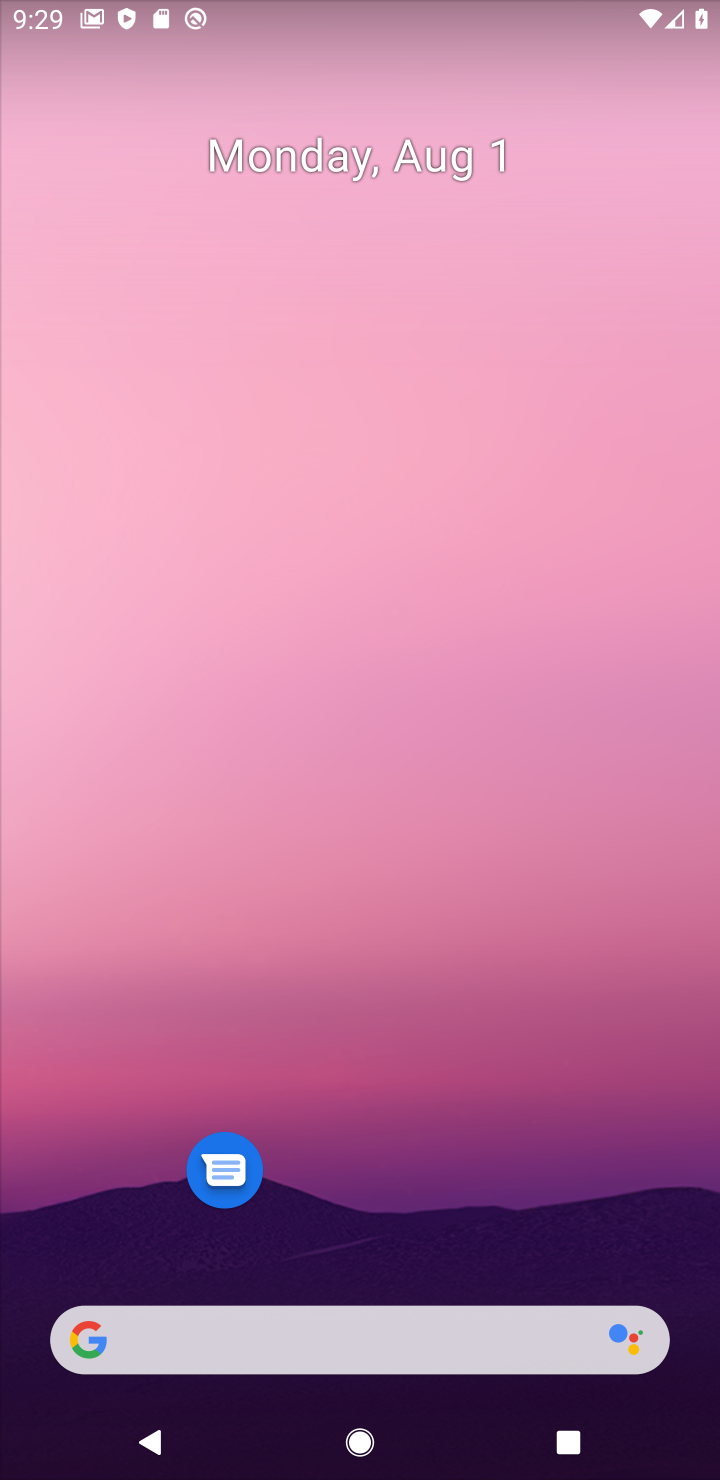
Step 29: click (214, 380)
Your task to perform on an android device: open app "Firefox Browser" (install if not already installed) Image 30: 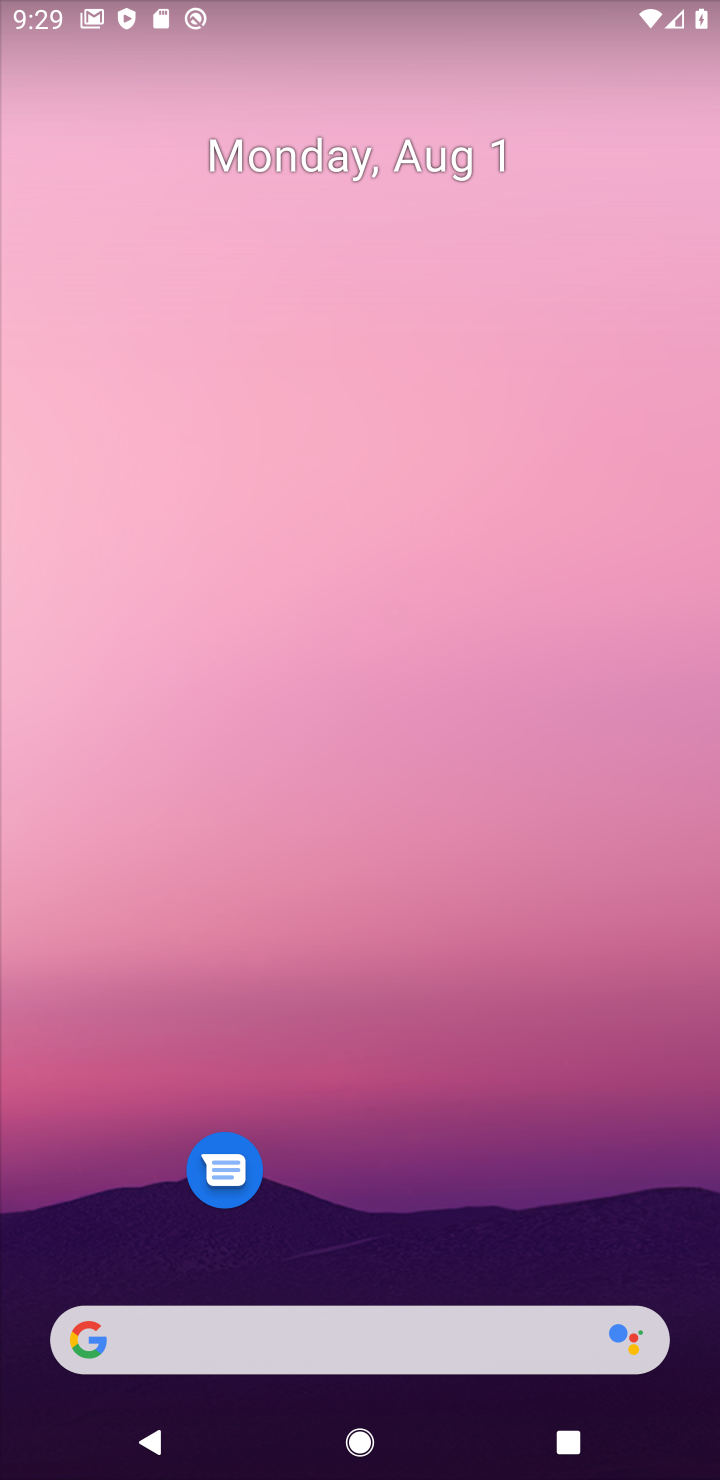
Step 30: drag from (375, 4) to (283, 75)
Your task to perform on an android device: open app "Firefox Browser" (install if not already installed) Image 31: 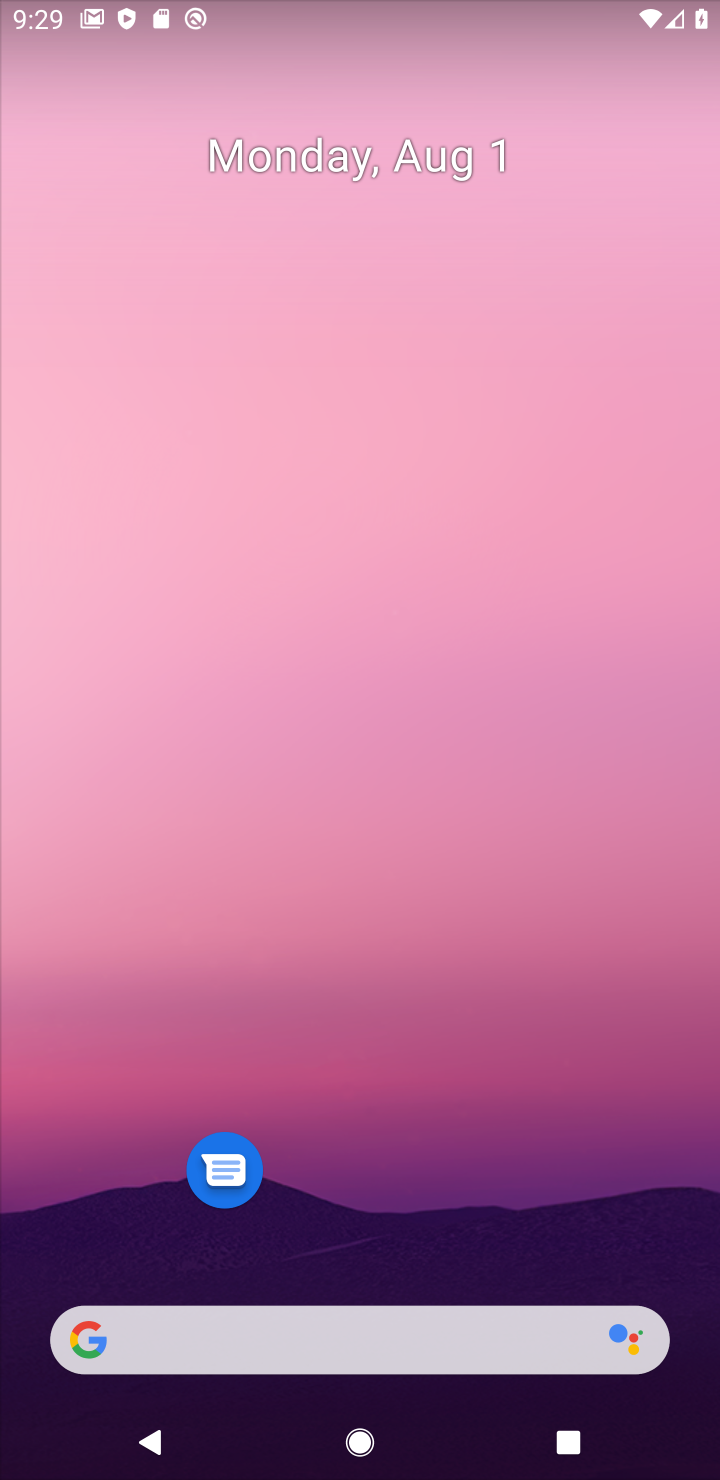
Step 31: drag from (382, 510) to (365, 138)
Your task to perform on an android device: open app "Firefox Browser" (install if not already installed) Image 32: 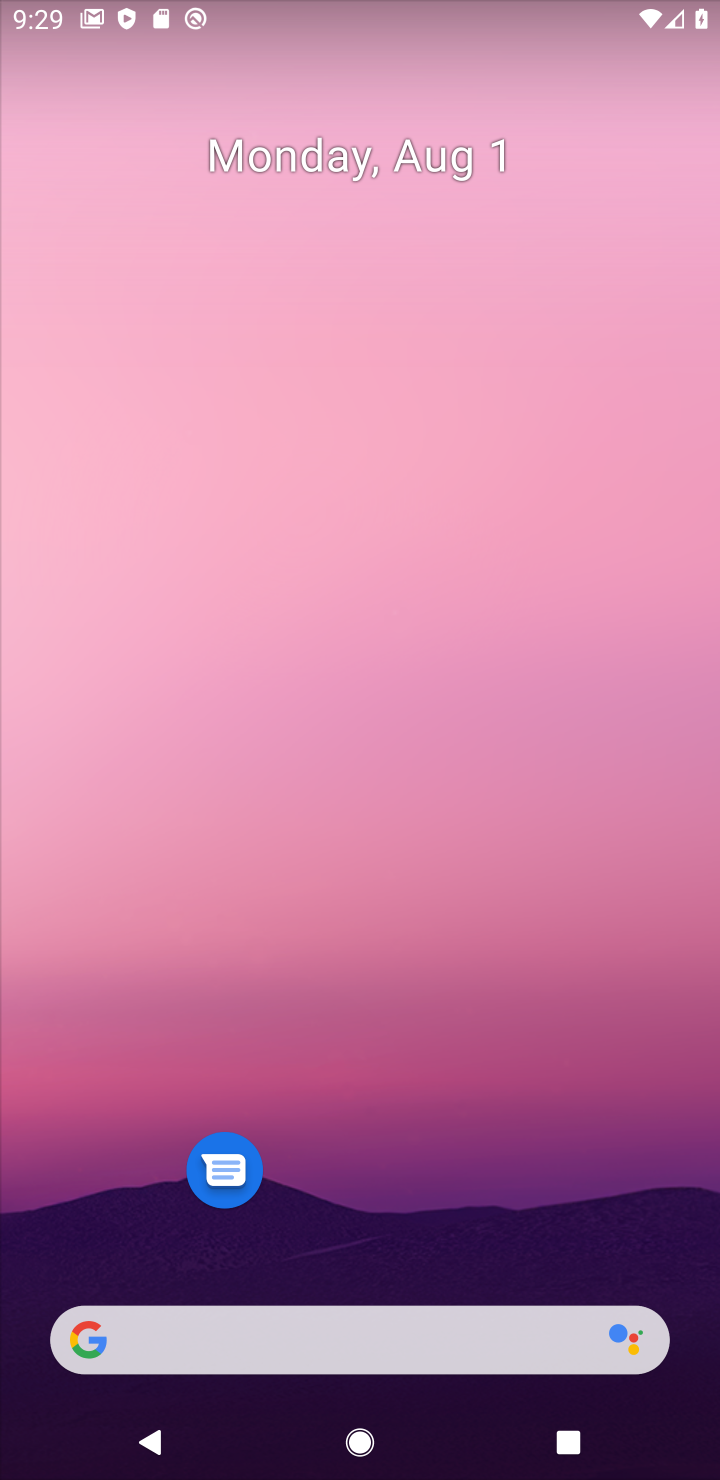
Step 32: press back button
Your task to perform on an android device: open app "Firefox Browser" (install if not already installed) Image 33: 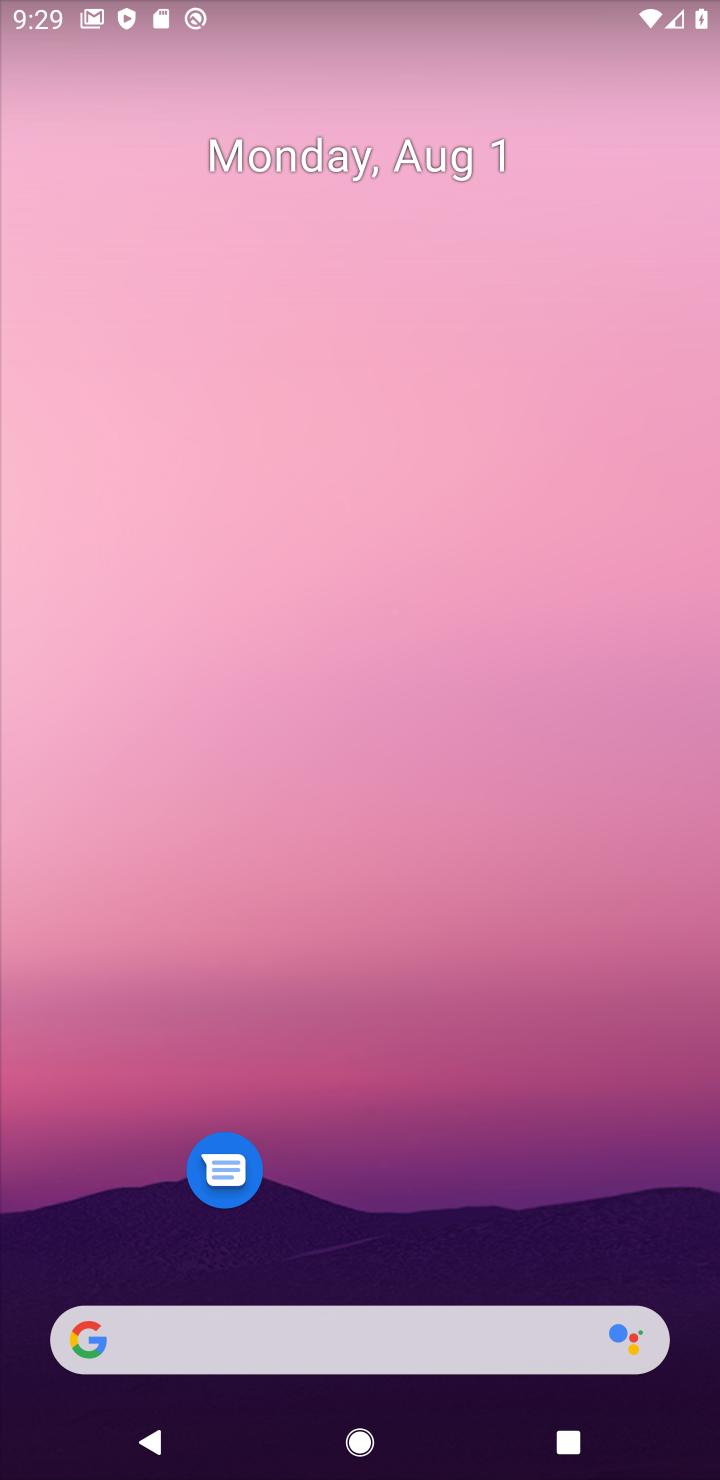
Step 33: drag from (241, 313) to (448, 89)
Your task to perform on an android device: open app "Firefox Browser" (install if not already installed) Image 34: 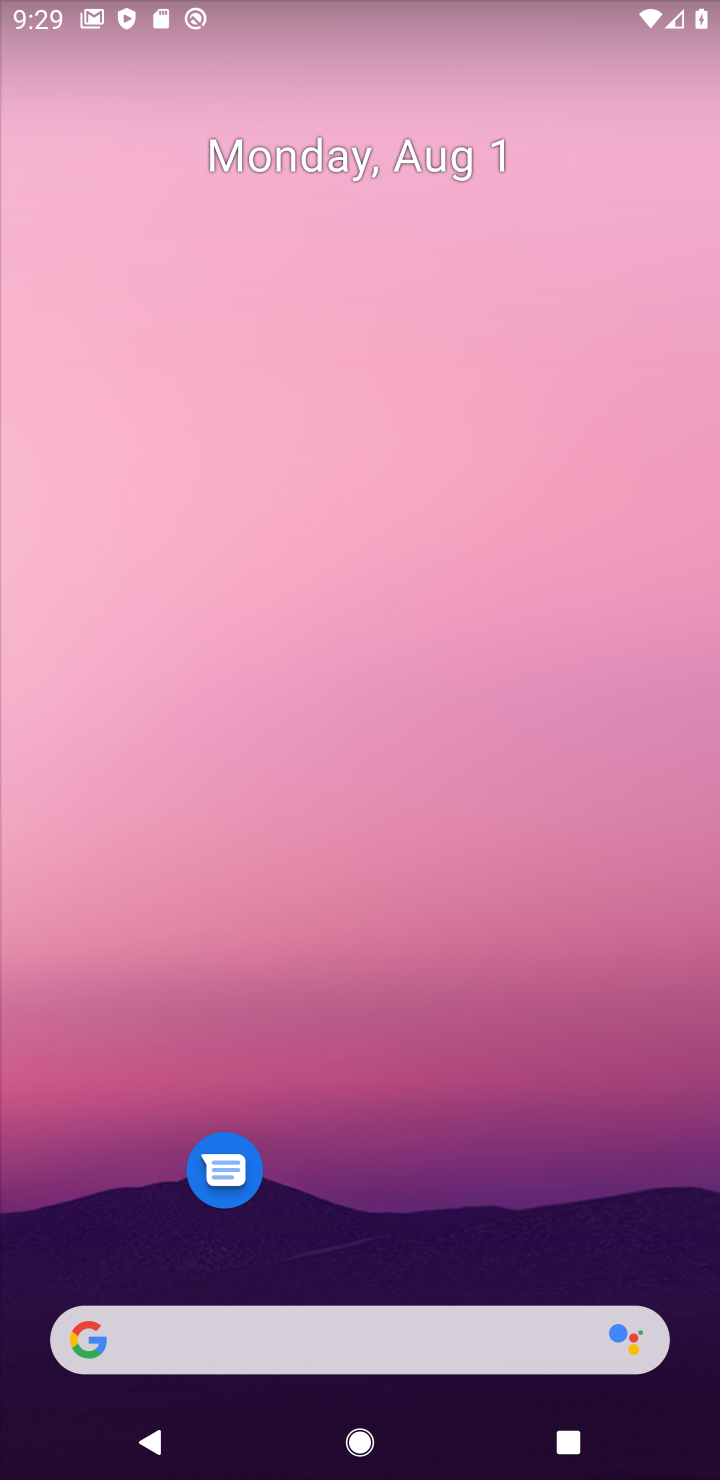
Step 34: drag from (456, 1344) to (368, 233)
Your task to perform on an android device: open app "Firefox Browser" (install if not already installed) Image 35: 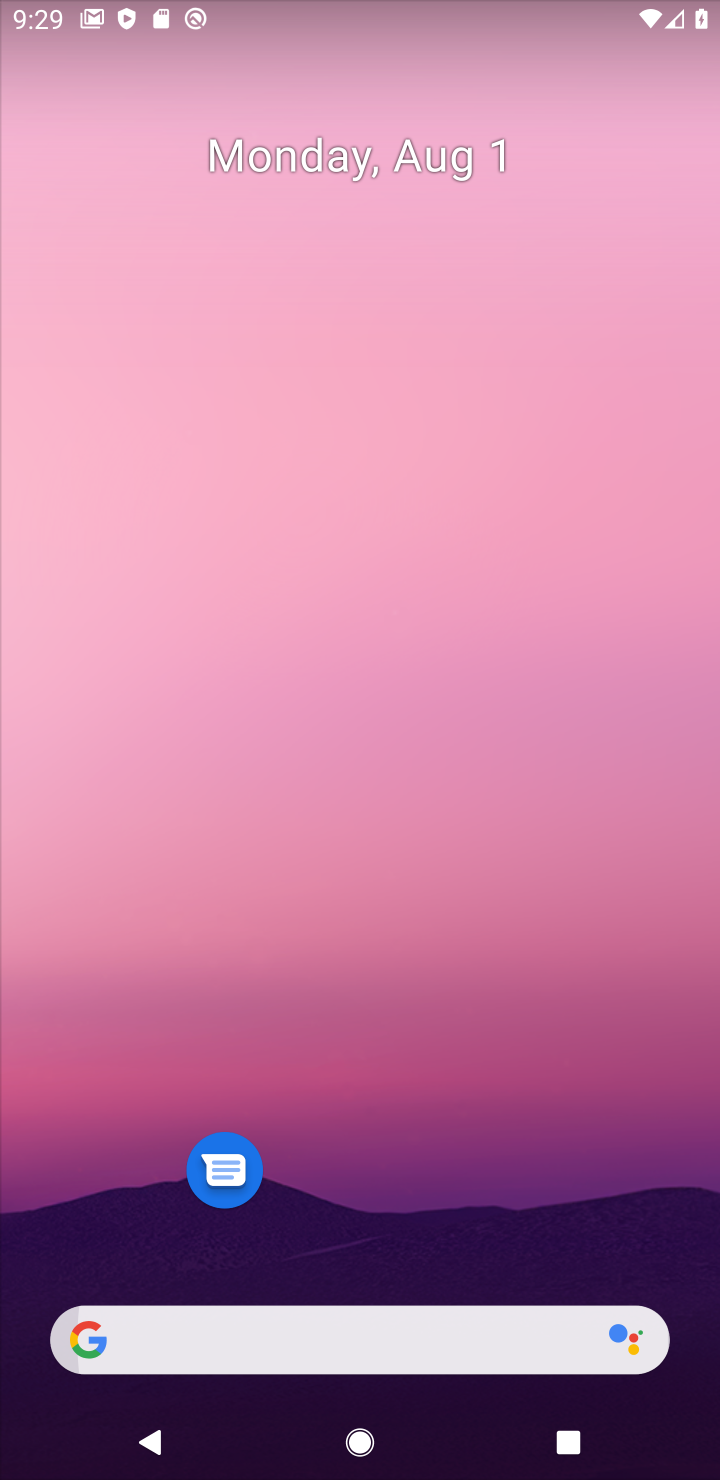
Step 35: drag from (406, 1252) to (414, 346)
Your task to perform on an android device: open app "Firefox Browser" (install if not already installed) Image 36: 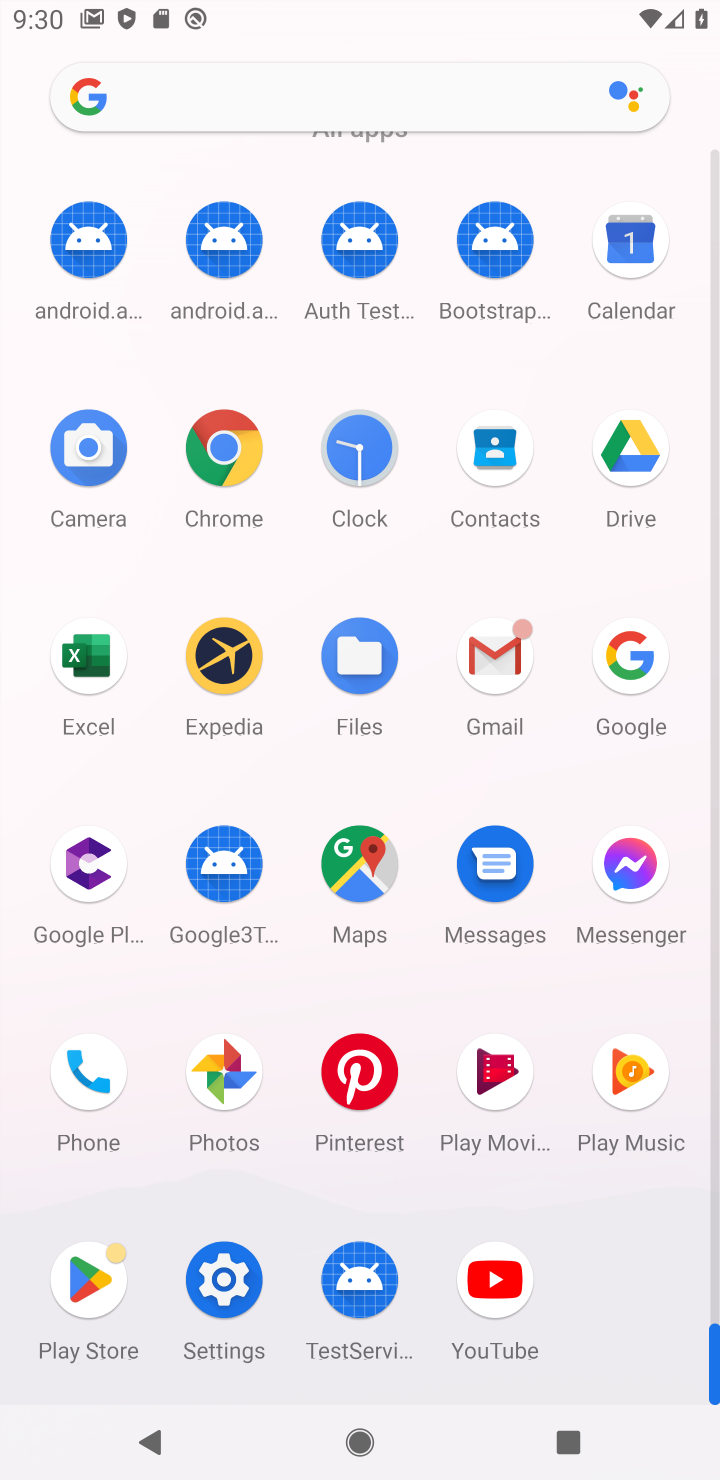
Step 36: click (86, 1276)
Your task to perform on an android device: open app "Firefox Browser" (install if not already installed) Image 37: 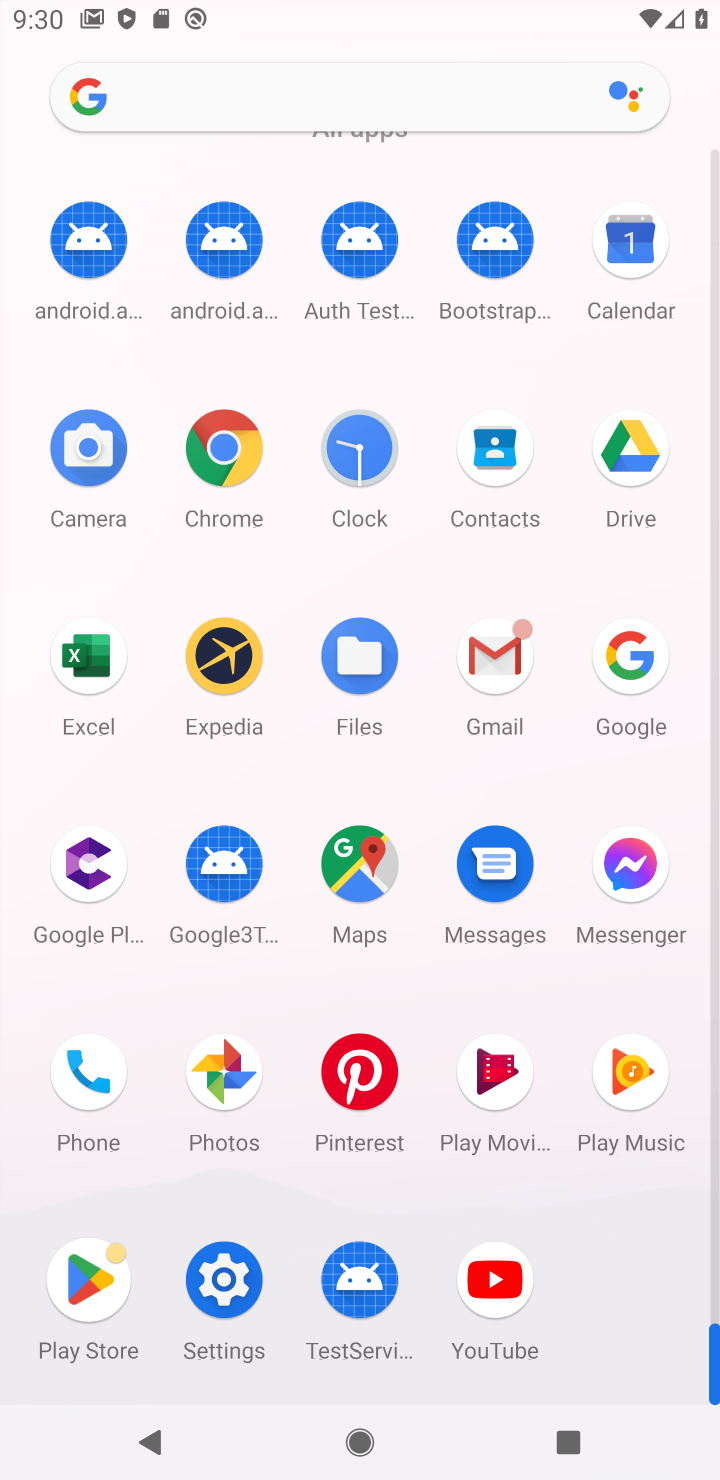
Step 37: click (109, 1259)
Your task to perform on an android device: open app "Firefox Browser" (install if not already installed) Image 38: 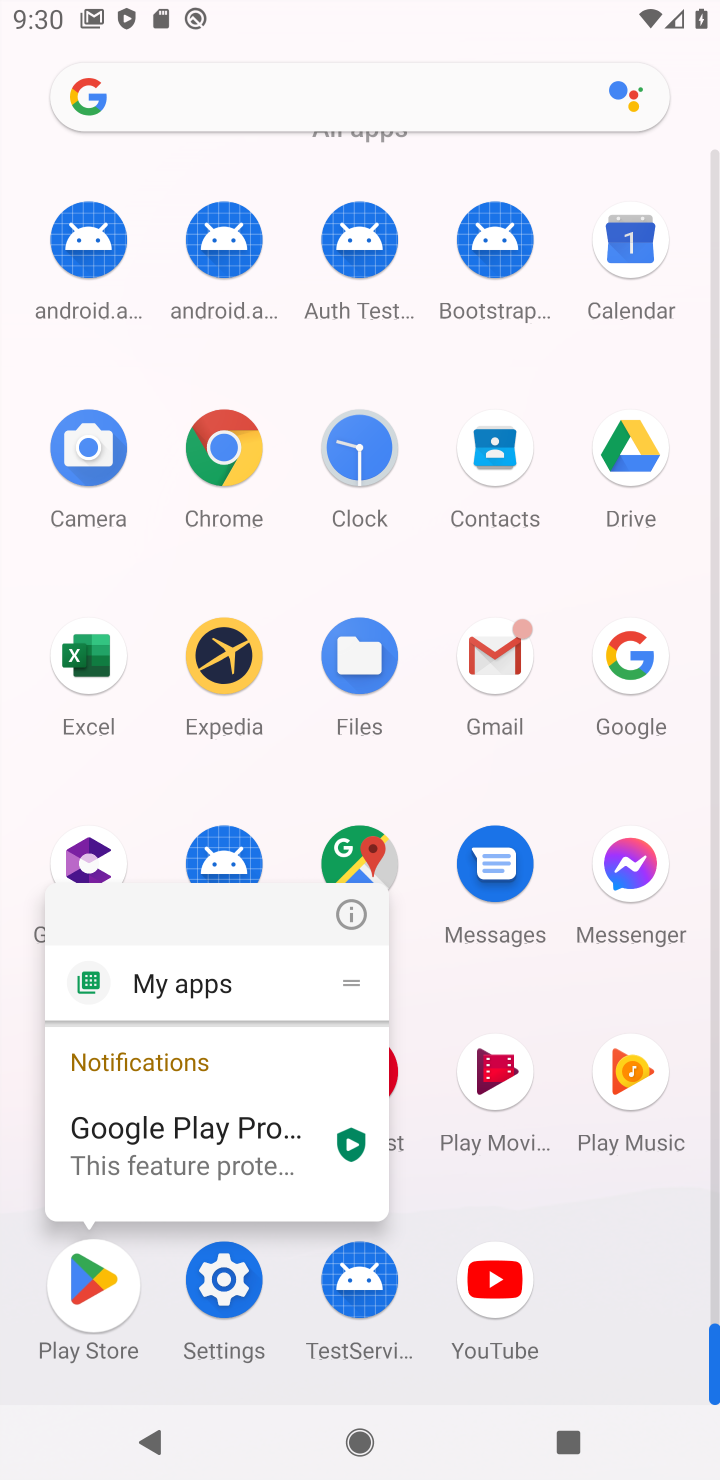
Step 38: click (99, 1286)
Your task to perform on an android device: open app "Firefox Browser" (install if not already installed) Image 39: 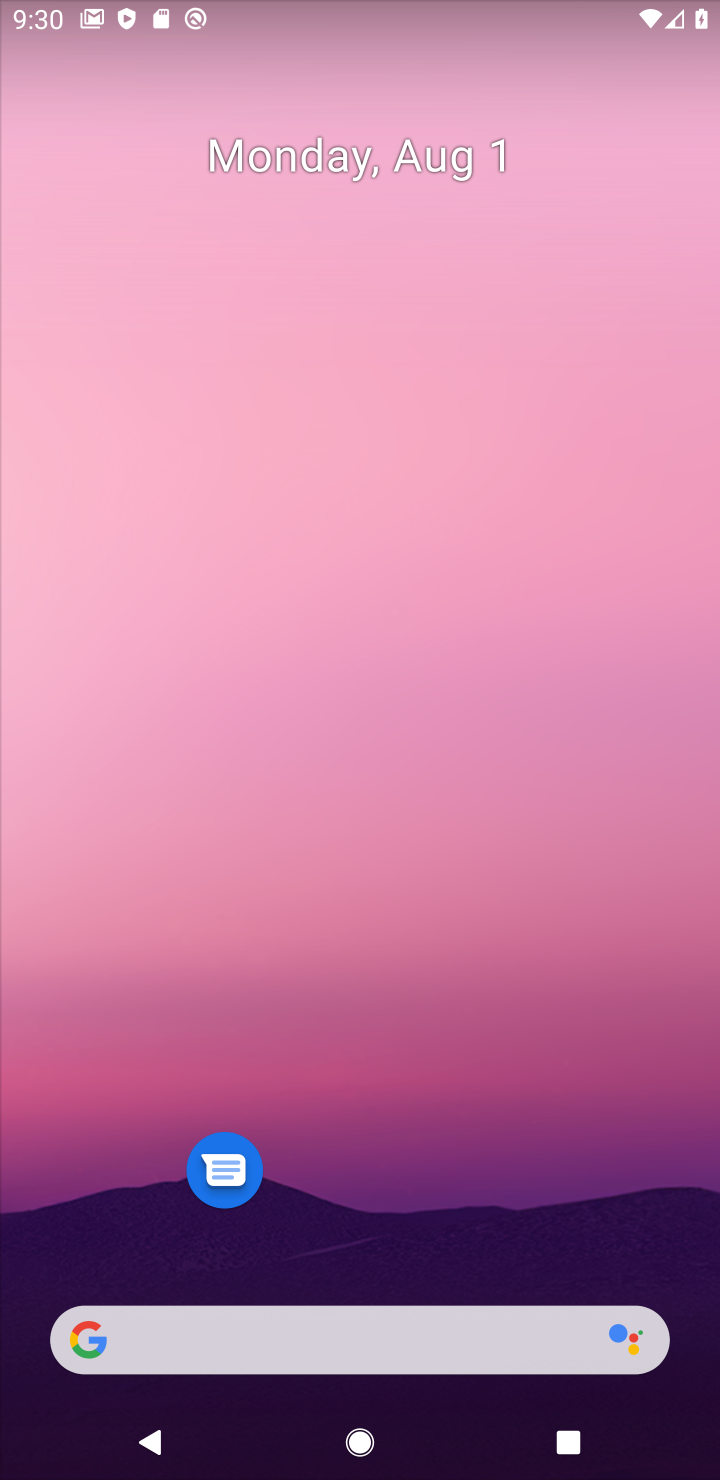
Step 39: drag from (433, 828) to (416, 144)
Your task to perform on an android device: open app "Firefox Browser" (install if not already installed) Image 40: 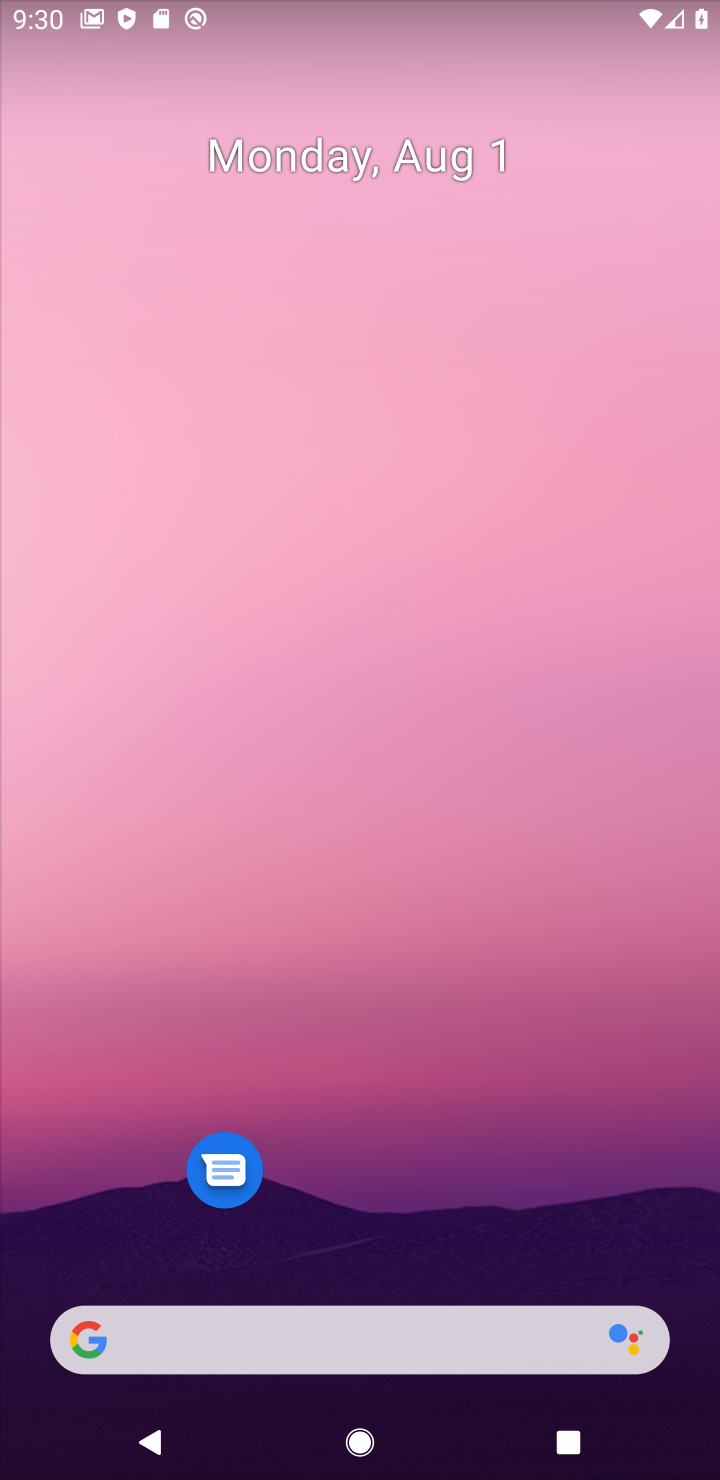
Step 40: drag from (364, 917) to (368, 374)
Your task to perform on an android device: open app "Firefox Browser" (install if not already installed) Image 41: 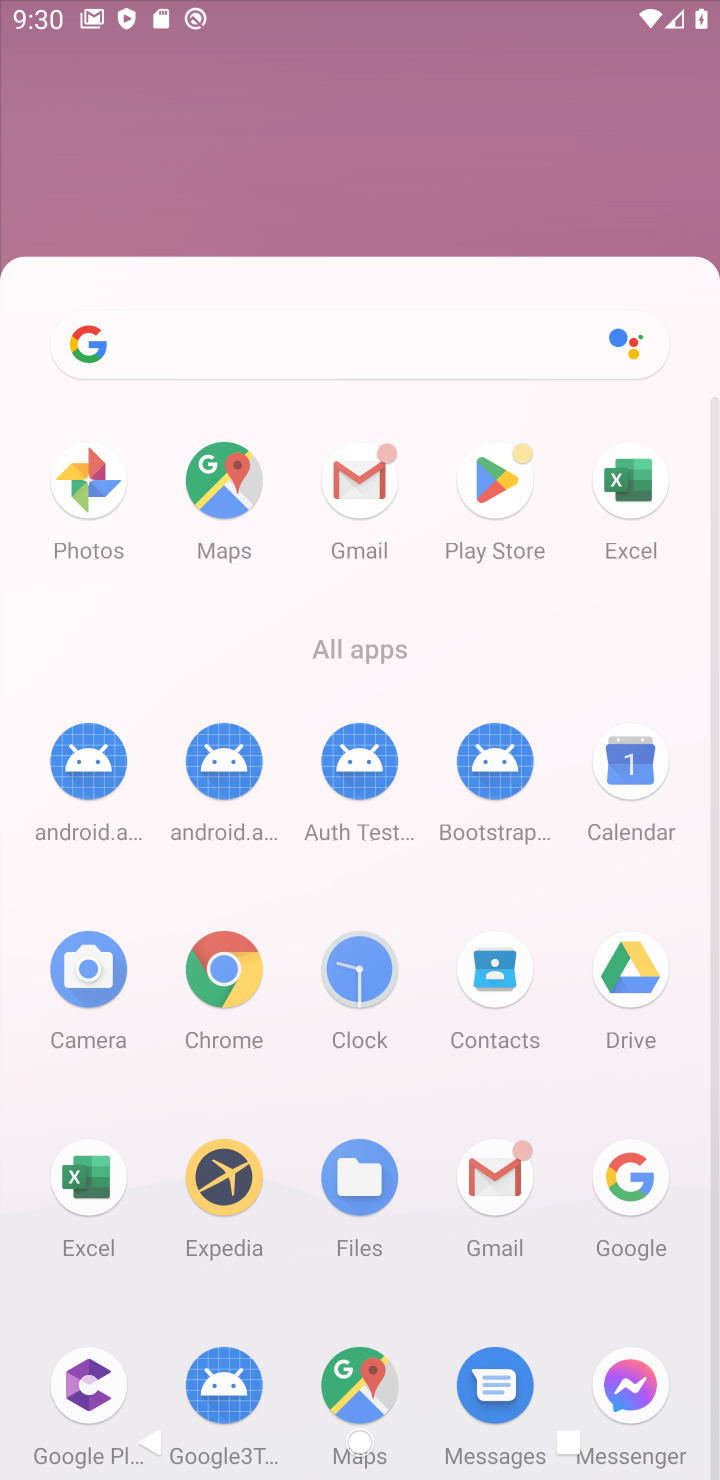
Step 41: drag from (485, 820) to (459, 293)
Your task to perform on an android device: open app "Firefox Browser" (install if not already installed) Image 42: 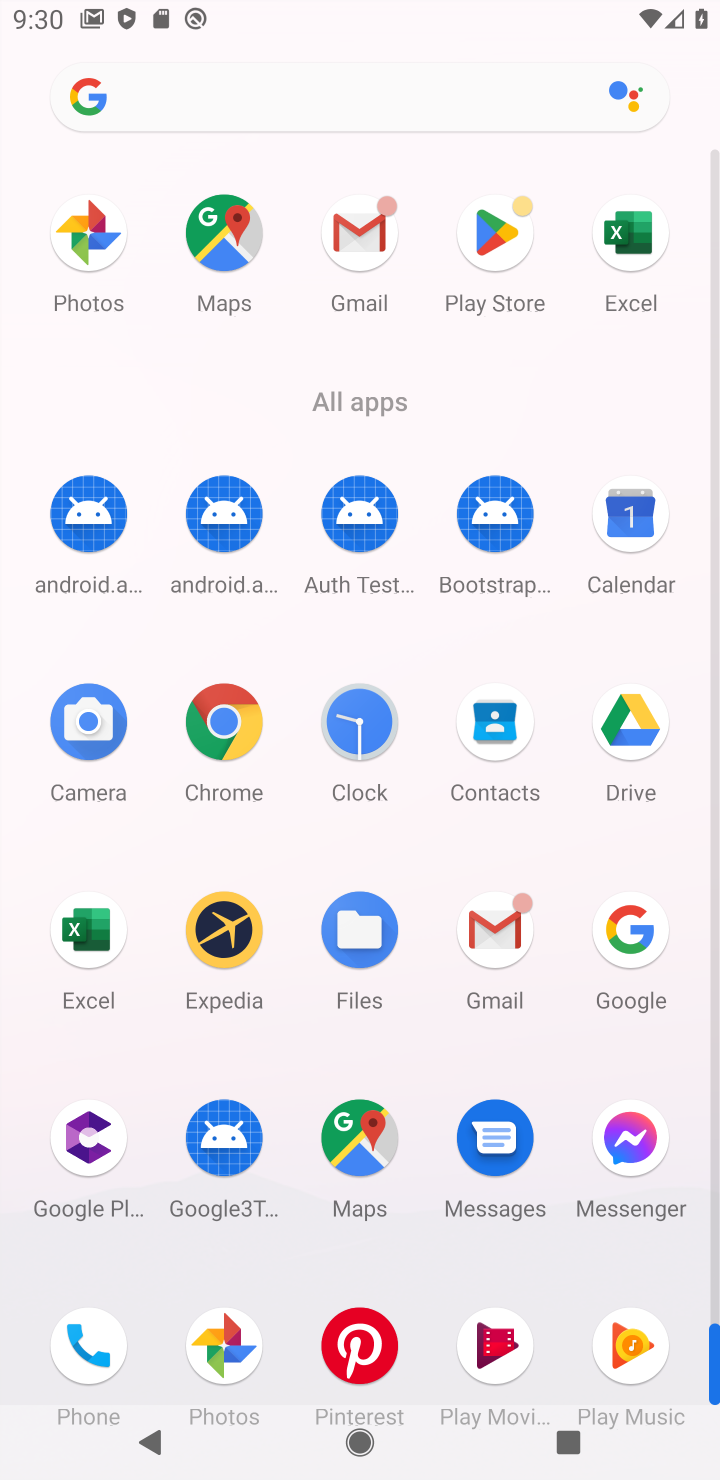
Step 42: drag from (469, 262) to (469, 181)
Your task to perform on an android device: open app "Firefox Browser" (install if not already installed) Image 43: 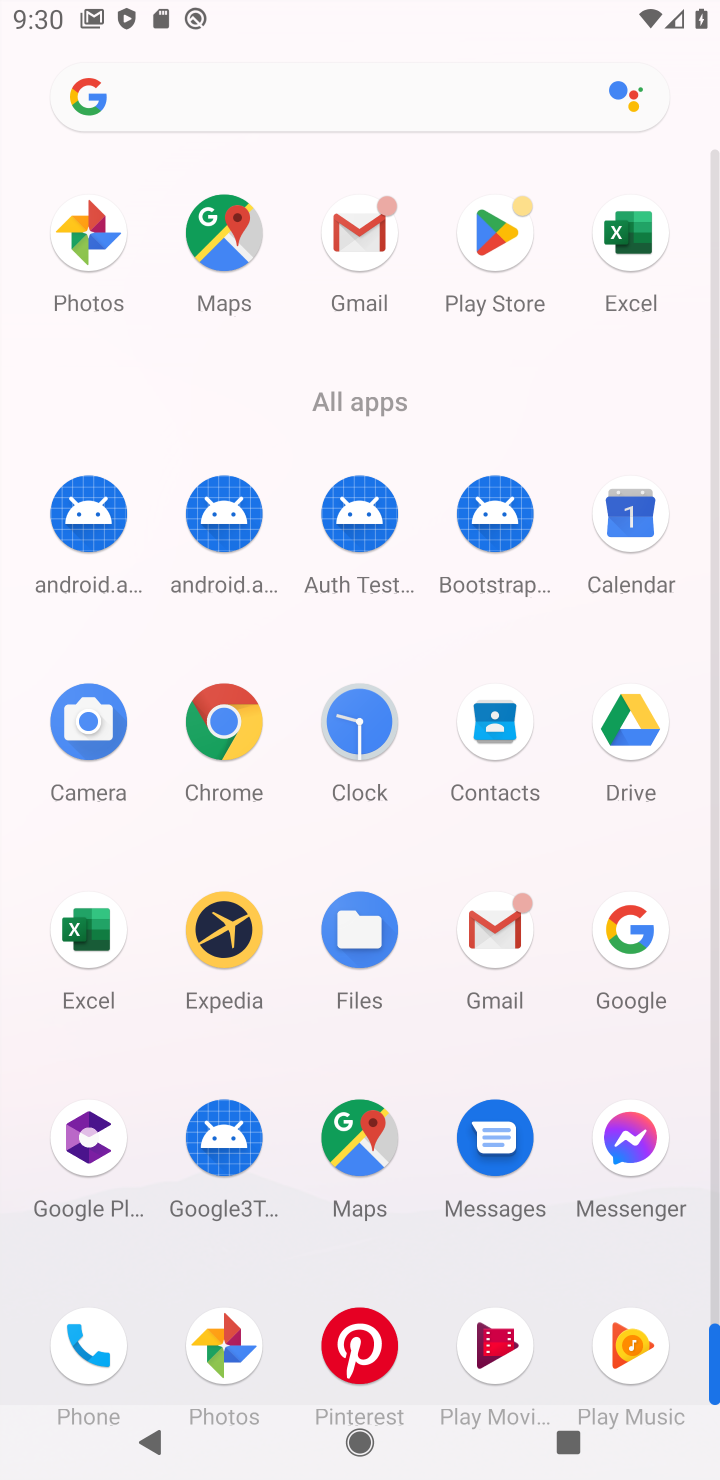
Step 43: click (505, 212)
Your task to perform on an android device: open app "Firefox Browser" (install if not already installed) Image 44: 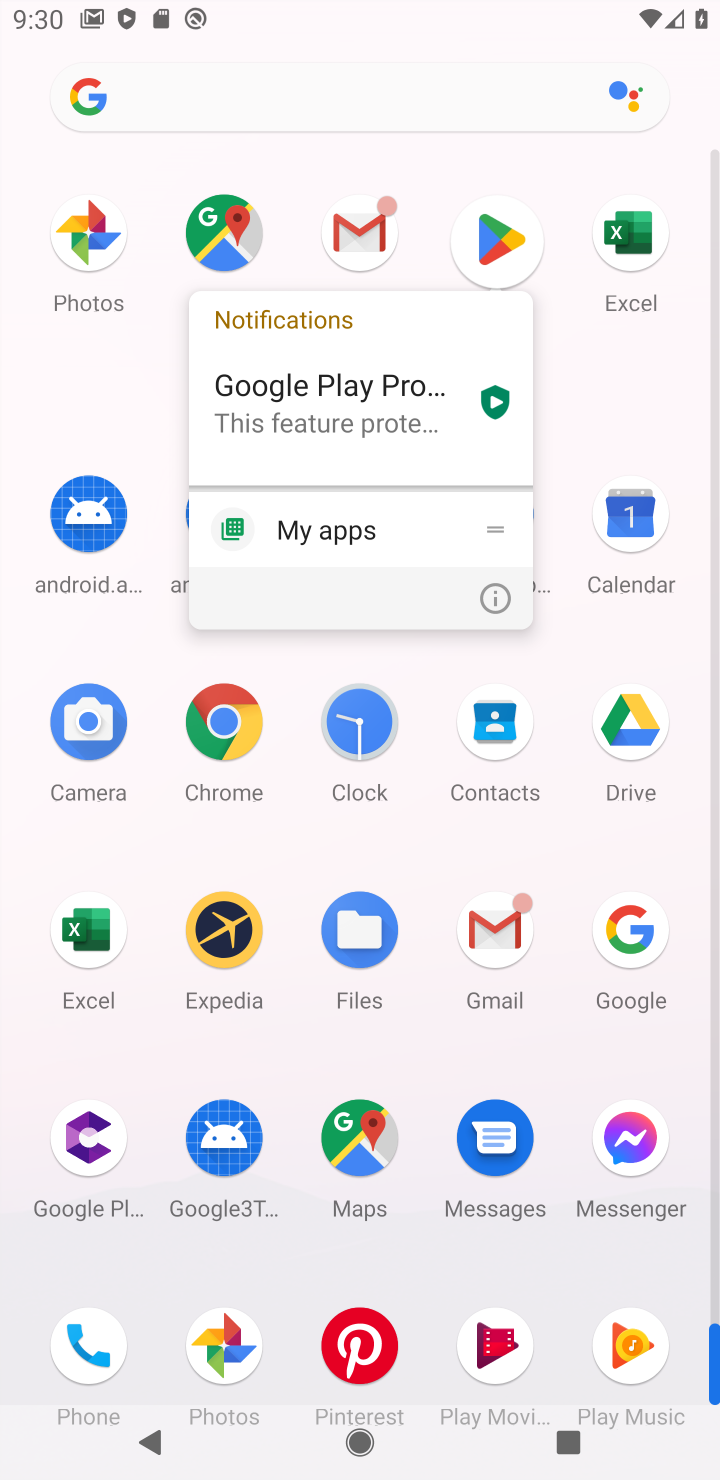
Step 44: click (524, 218)
Your task to perform on an android device: open app "Firefox Browser" (install if not already installed) Image 45: 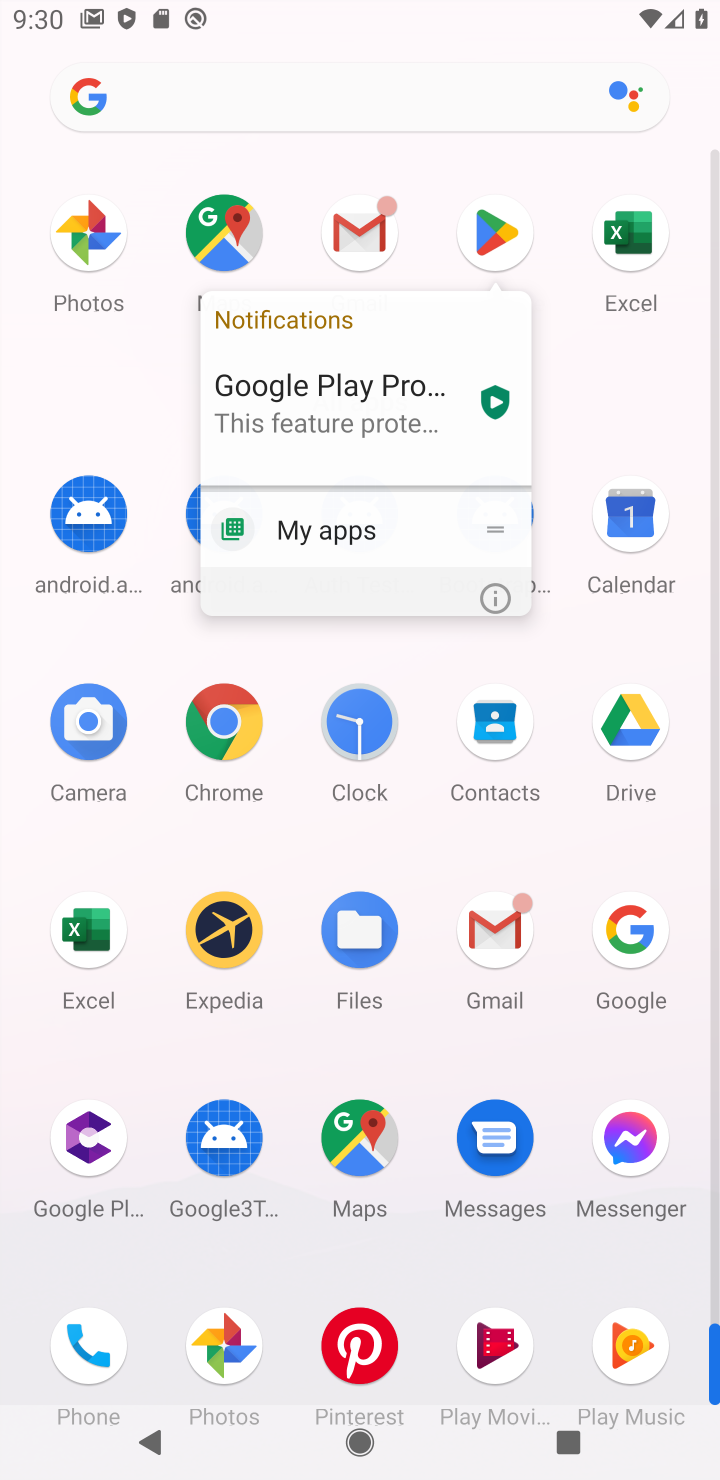
Step 45: click (507, 224)
Your task to perform on an android device: open app "Firefox Browser" (install if not already installed) Image 46: 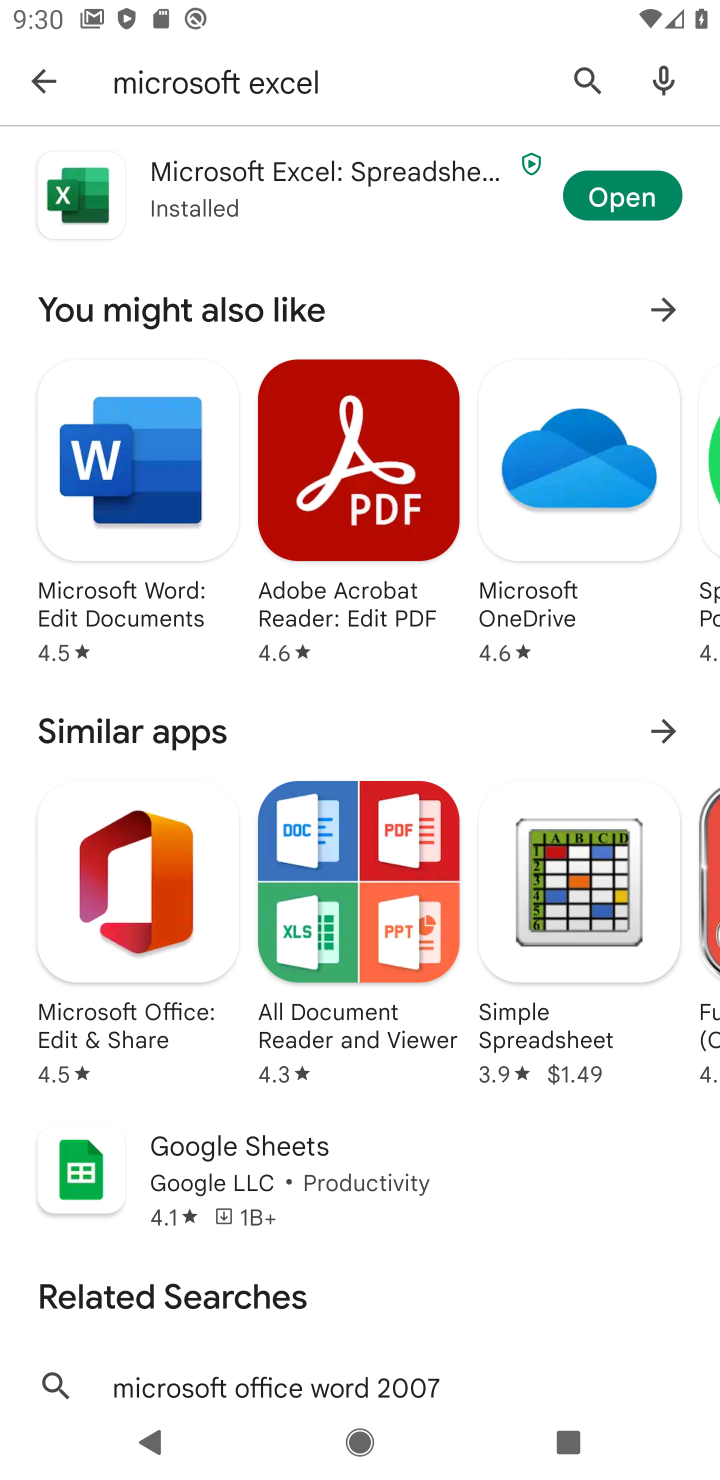
Step 46: click (57, 81)
Your task to perform on an android device: open app "Firefox Browser" (install if not already installed) Image 47: 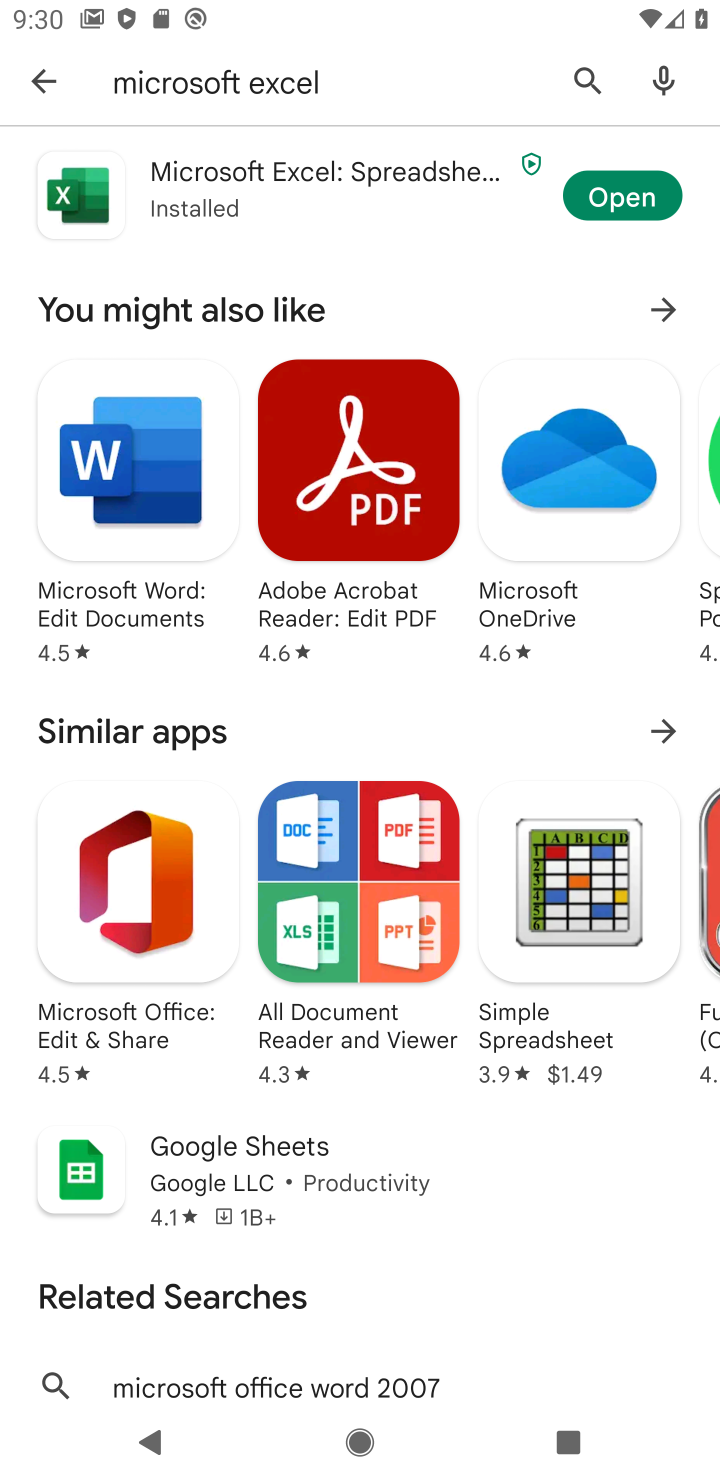
Step 47: click (388, 81)
Your task to perform on an android device: open app "Firefox Browser" (install if not already installed) Image 48: 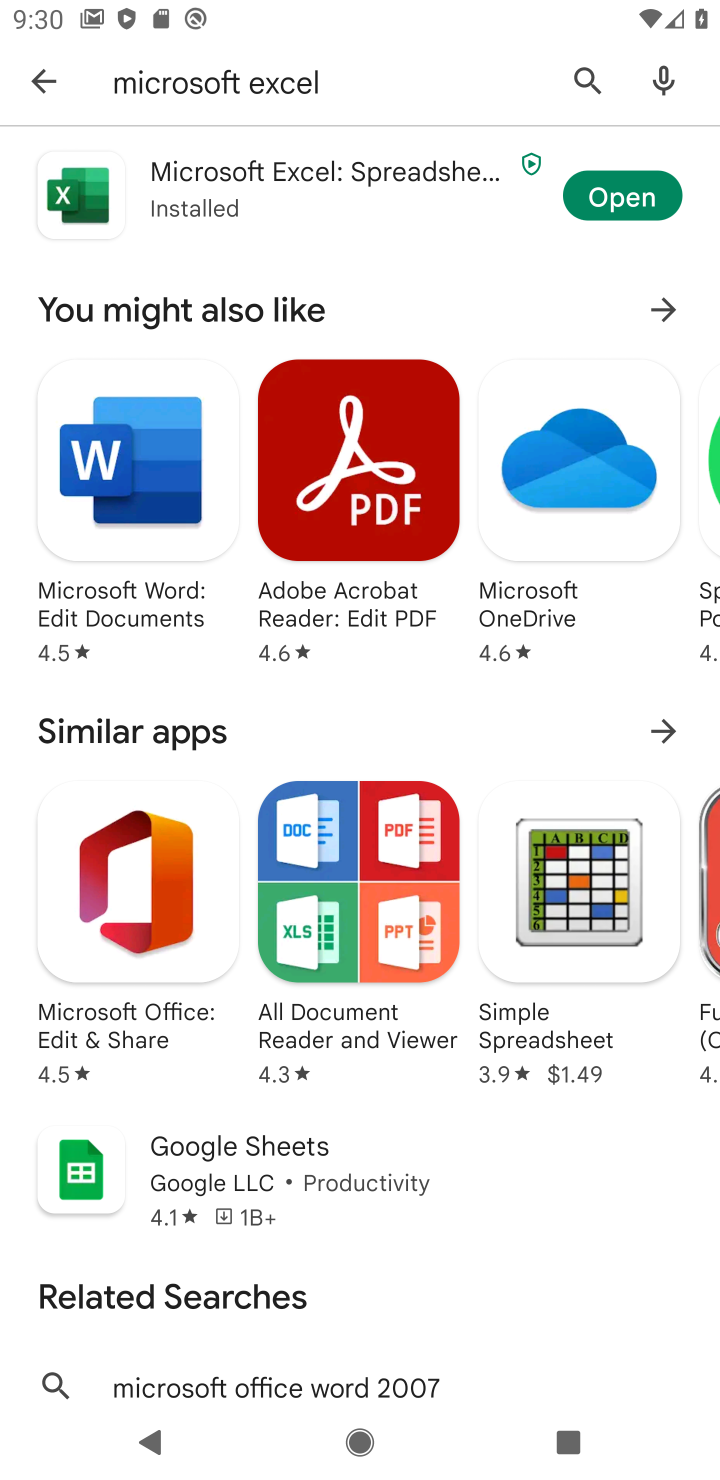
Step 48: click (390, 81)
Your task to perform on an android device: open app "Firefox Browser" (install if not already installed) Image 49: 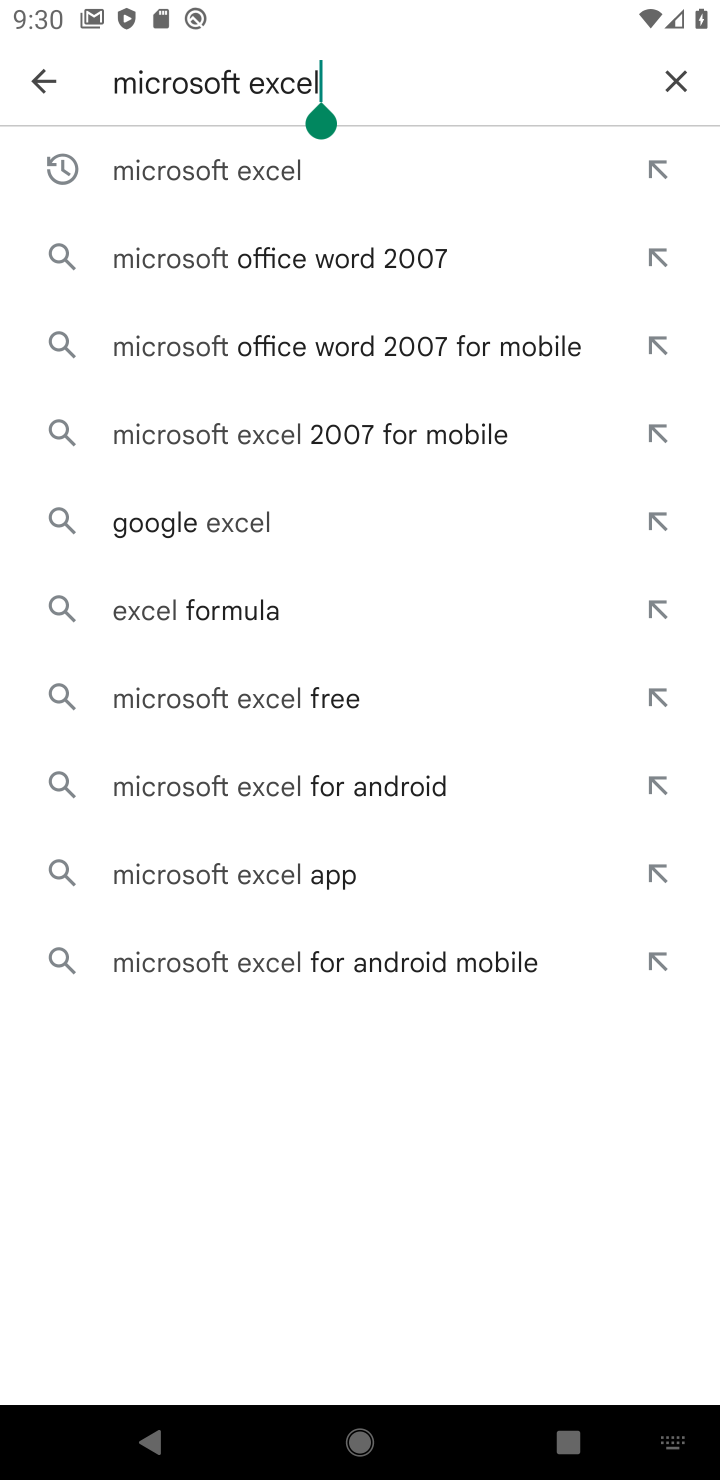
Step 49: click (675, 75)
Your task to perform on an android device: open app "Firefox Browser" (install if not already installed) Image 50: 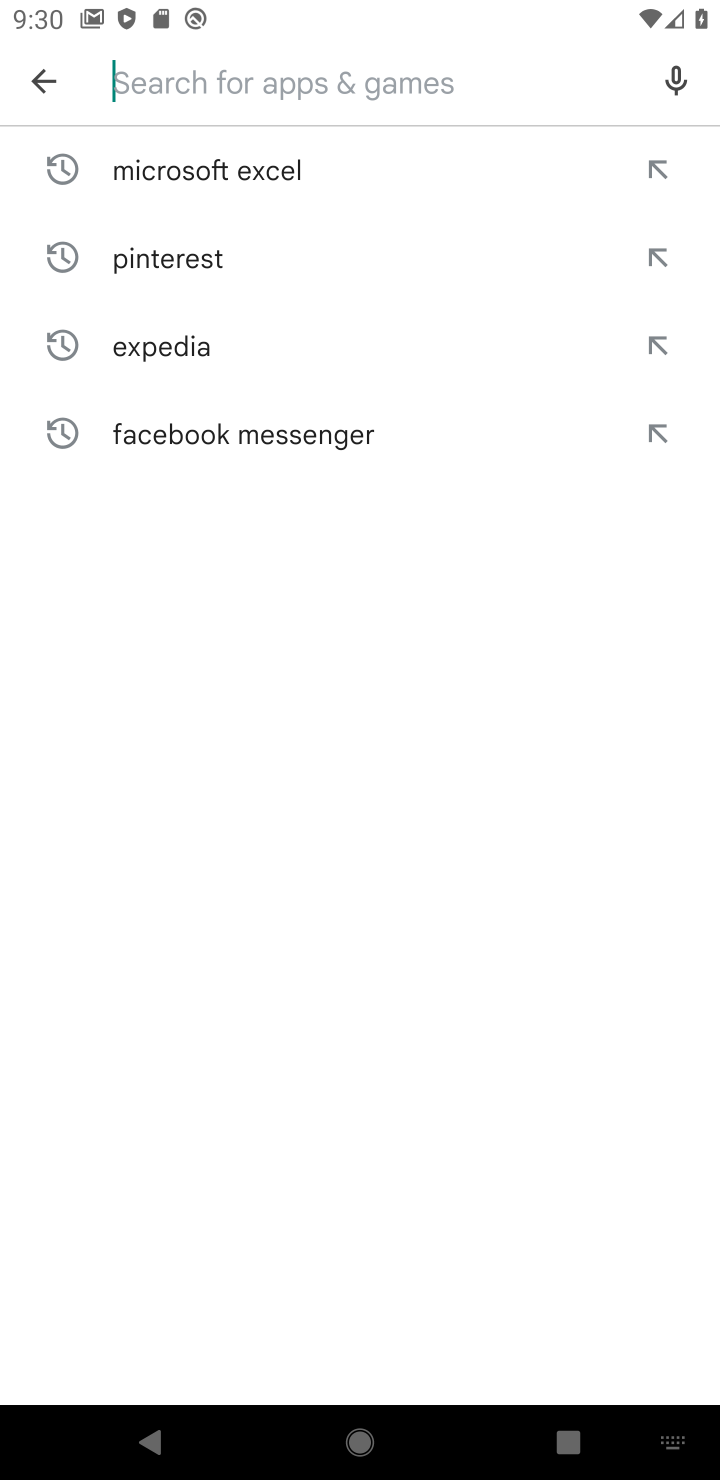
Step 50: type "firefox browser"
Your task to perform on an android device: open app "Firefox Browser" (install if not already installed) Image 51: 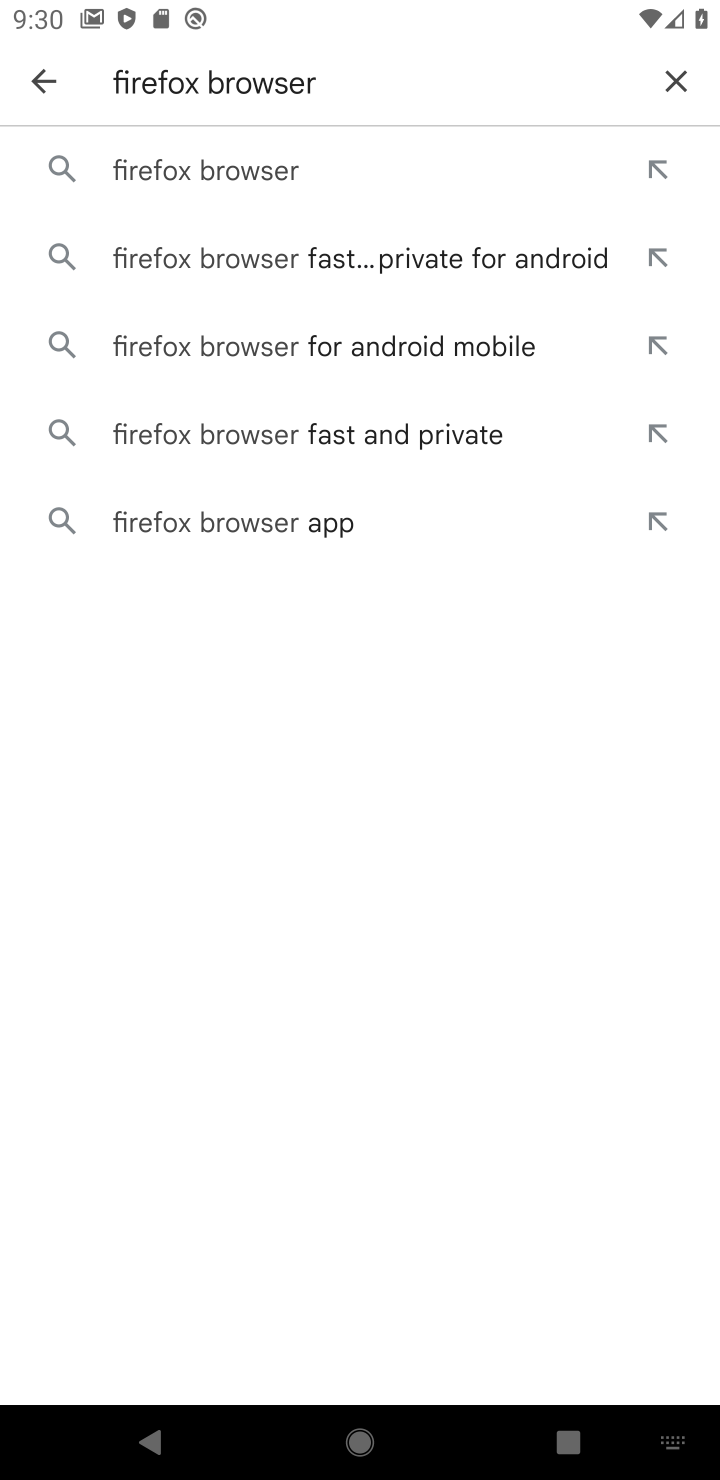
Step 51: click (188, 176)
Your task to perform on an android device: open app "Firefox Browser" (install if not already installed) Image 52: 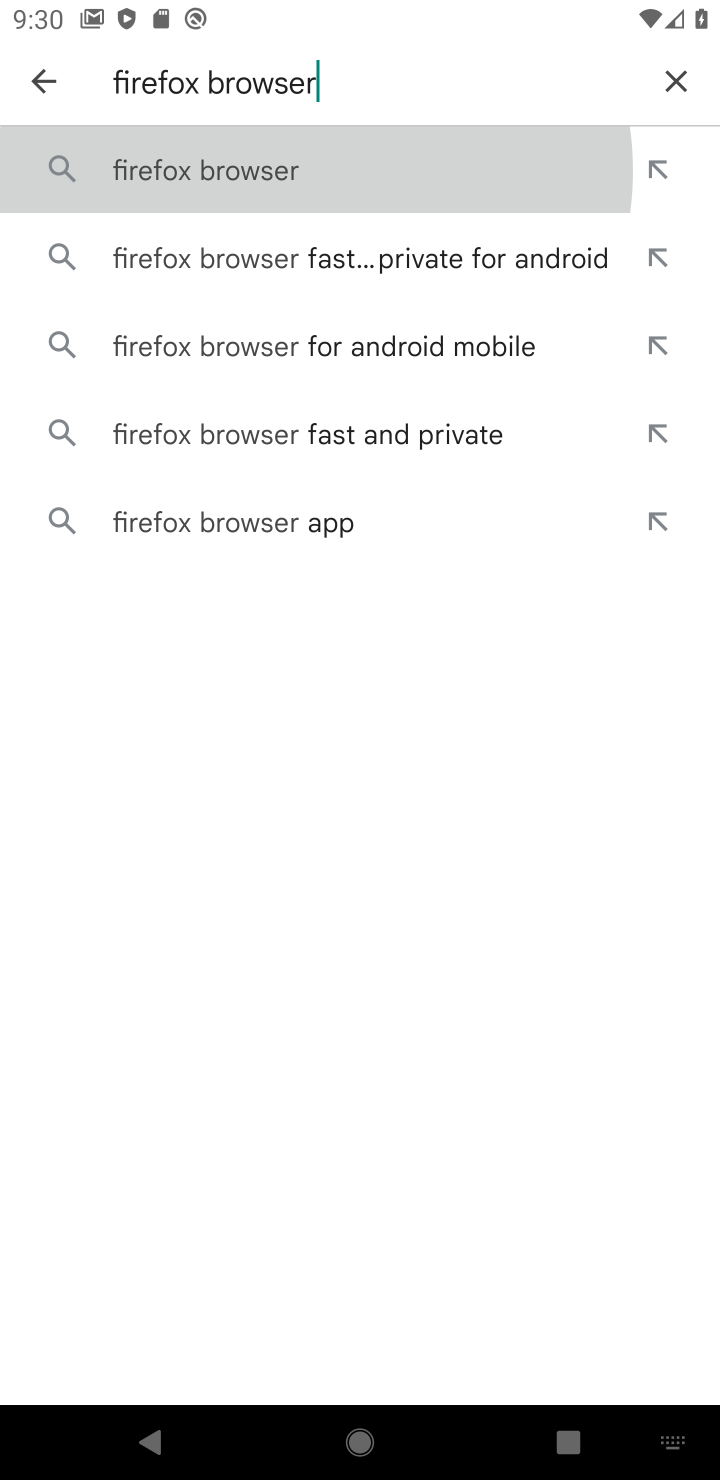
Step 52: click (188, 176)
Your task to perform on an android device: open app "Firefox Browser" (install if not already installed) Image 53: 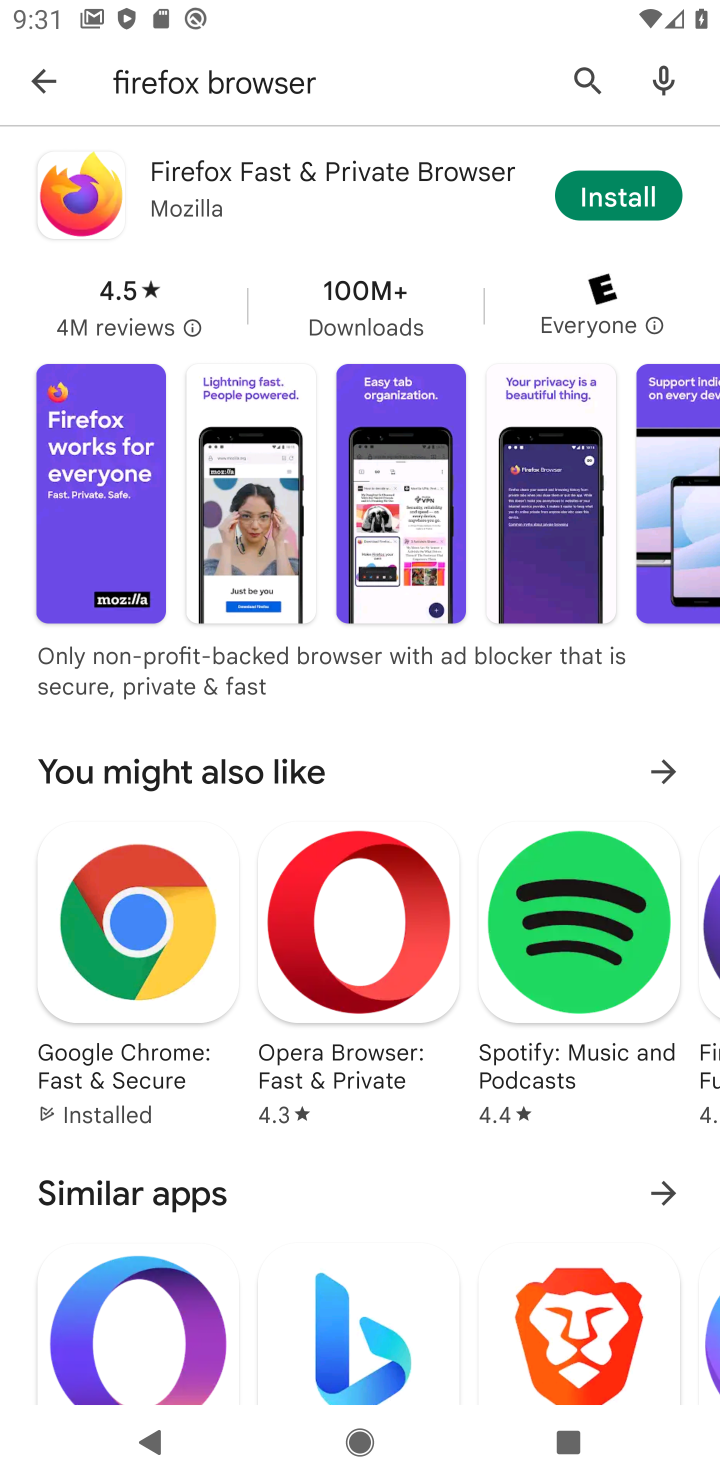
Step 53: click (622, 187)
Your task to perform on an android device: open app "Firefox Browser" (install if not already installed) Image 54: 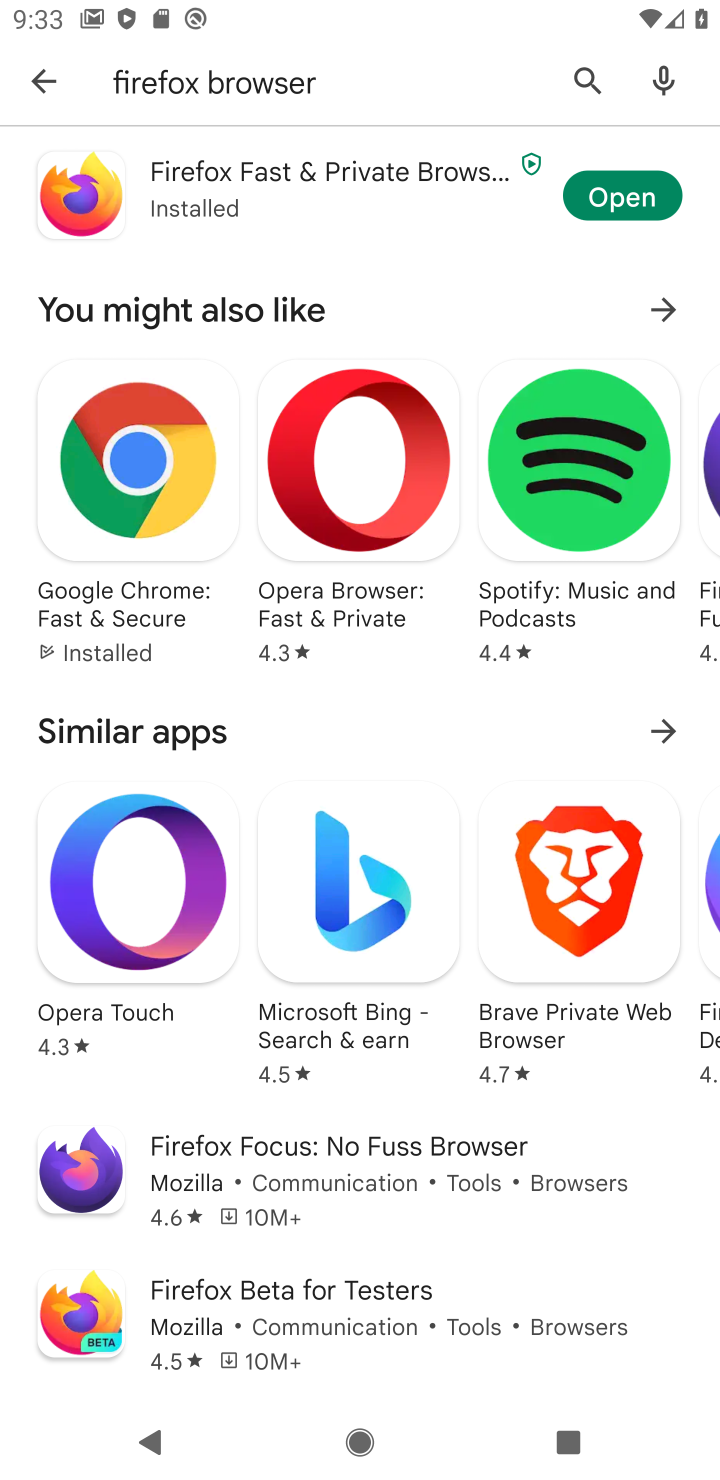
Step 54: click (639, 190)
Your task to perform on an android device: open app "Firefox Browser" (install if not already installed) Image 55: 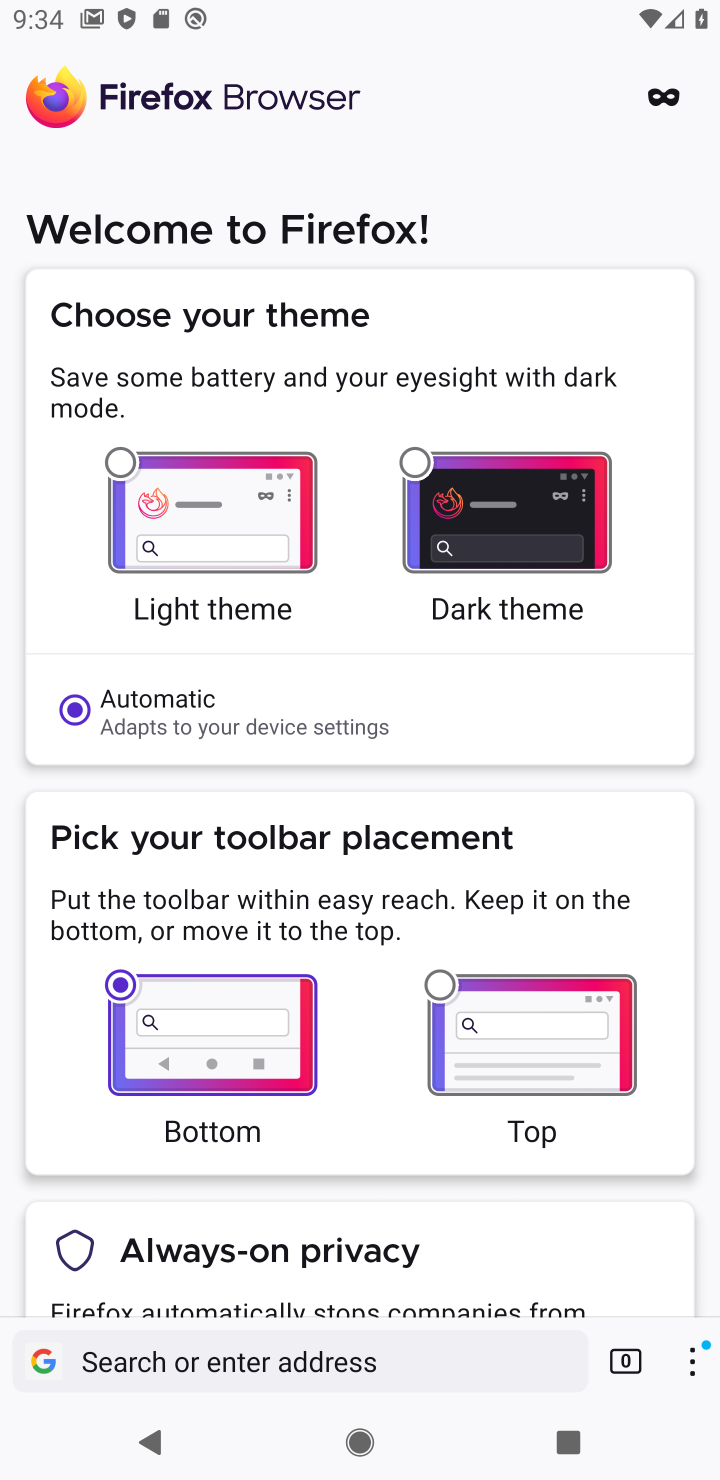
Step 55: task complete